Your task to perform on an android device: open app "Google Maps" (install if not already installed) Image 0: 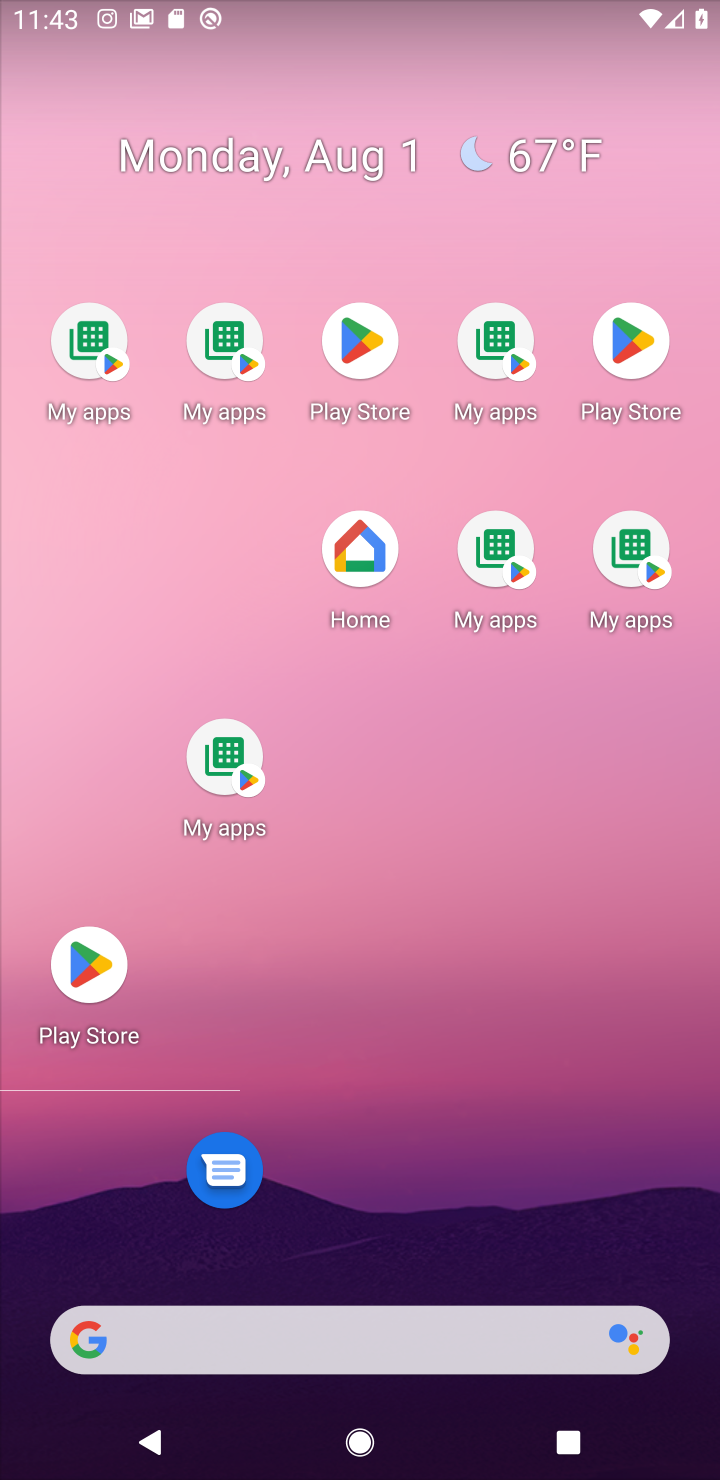
Step 0: click (627, 318)
Your task to perform on an android device: open app "Google Maps" (install if not already installed) Image 1: 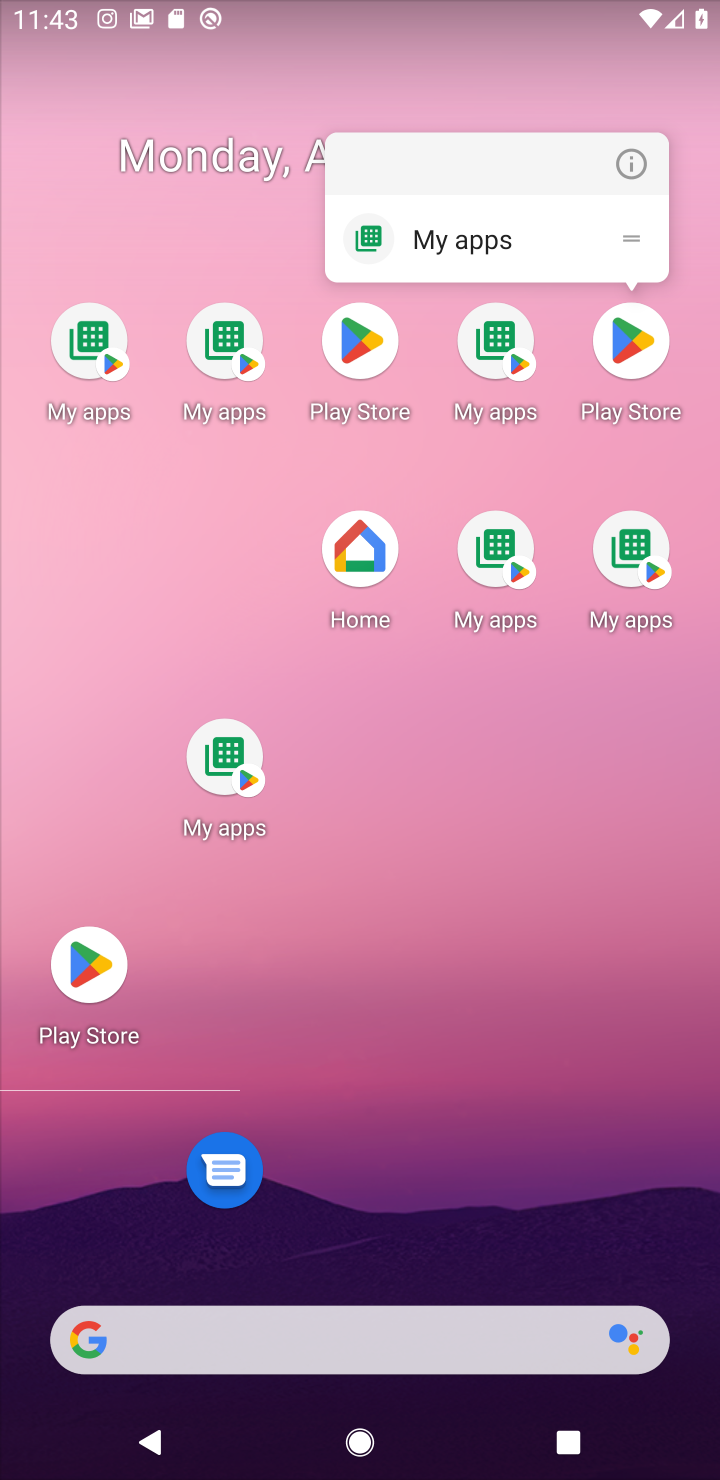
Step 1: click (482, 1049)
Your task to perform on an android device: open app "Google Maps" (install if not already installed) Image 2: 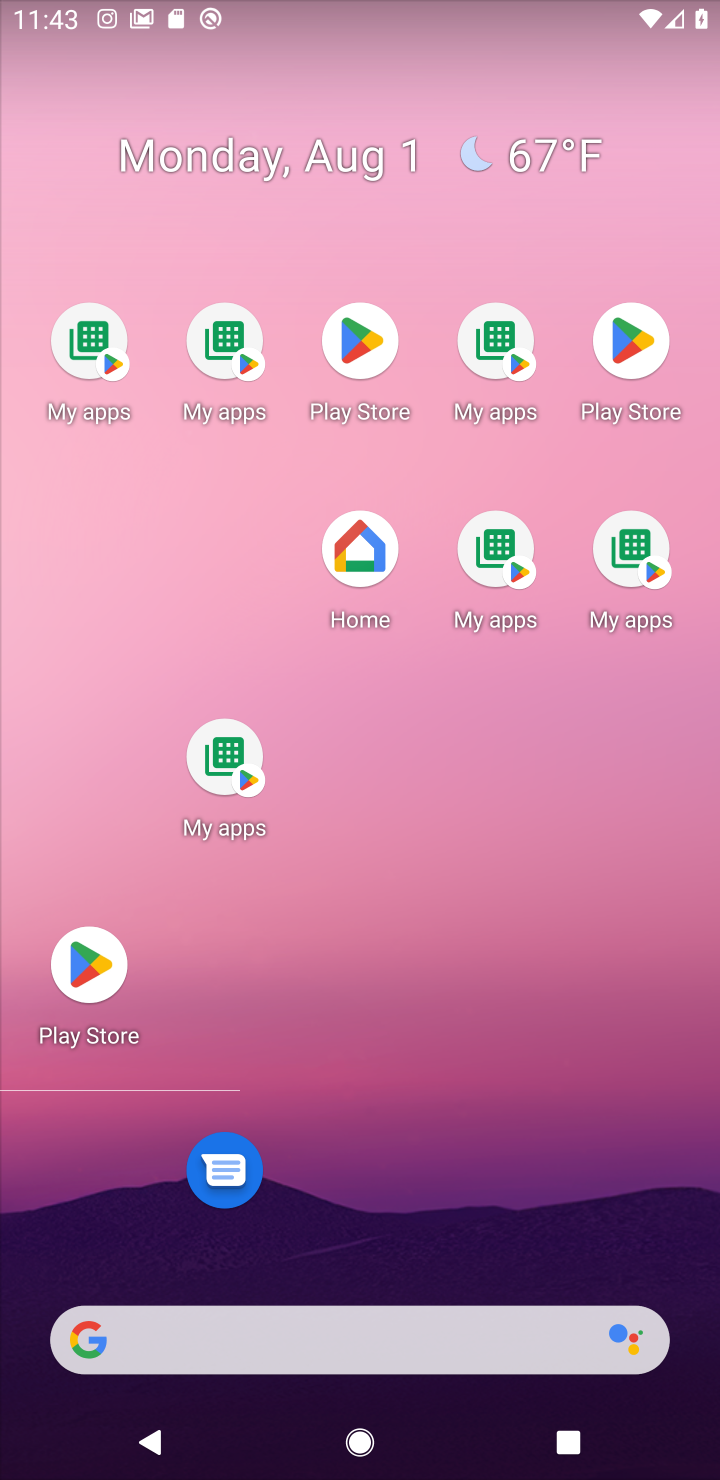
Step 2: click (367, 521)
Your task to perform on an android device: open app "Google Maps" (install if not already installed) Image 3: 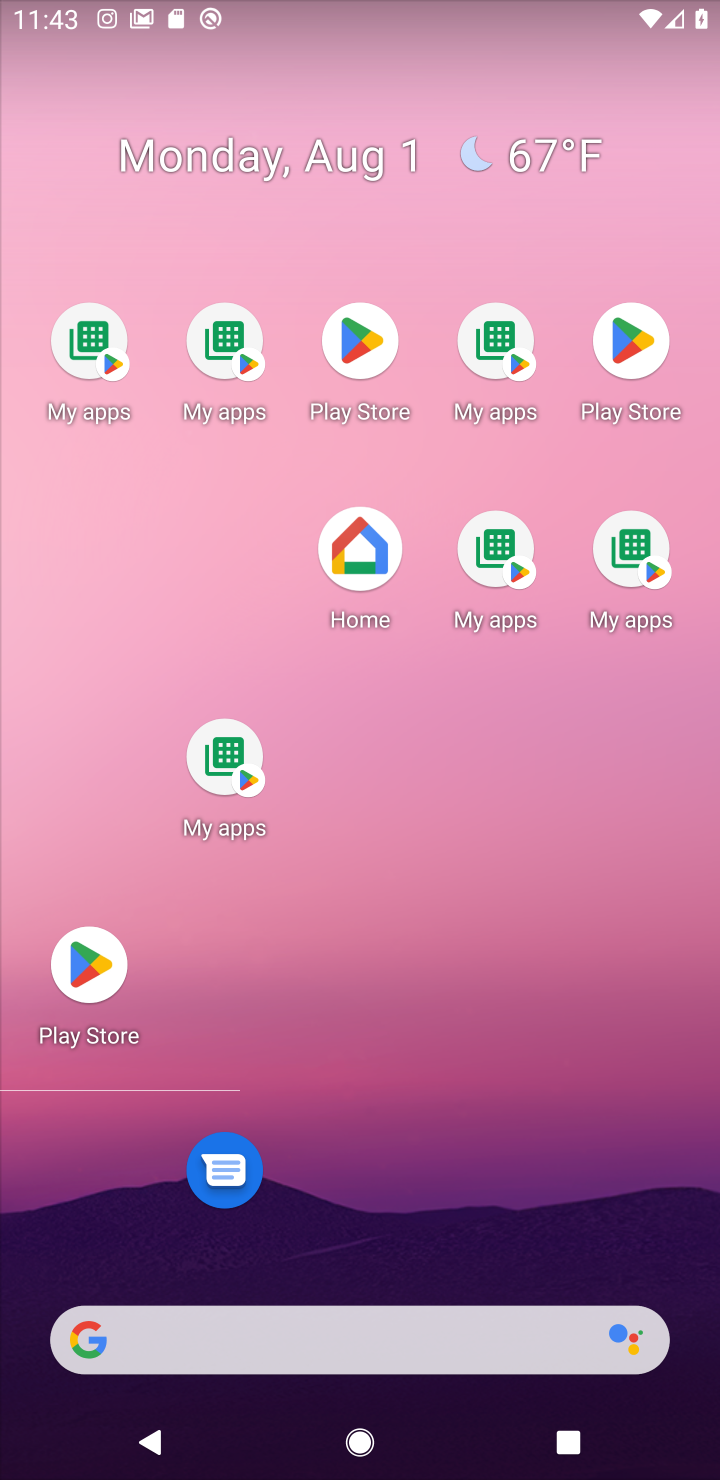
Step 3: drag from (402, 886) to (402, 190)
Your task to perform on an android device: open app "Google Maps" (install if not already installed) Image 4: 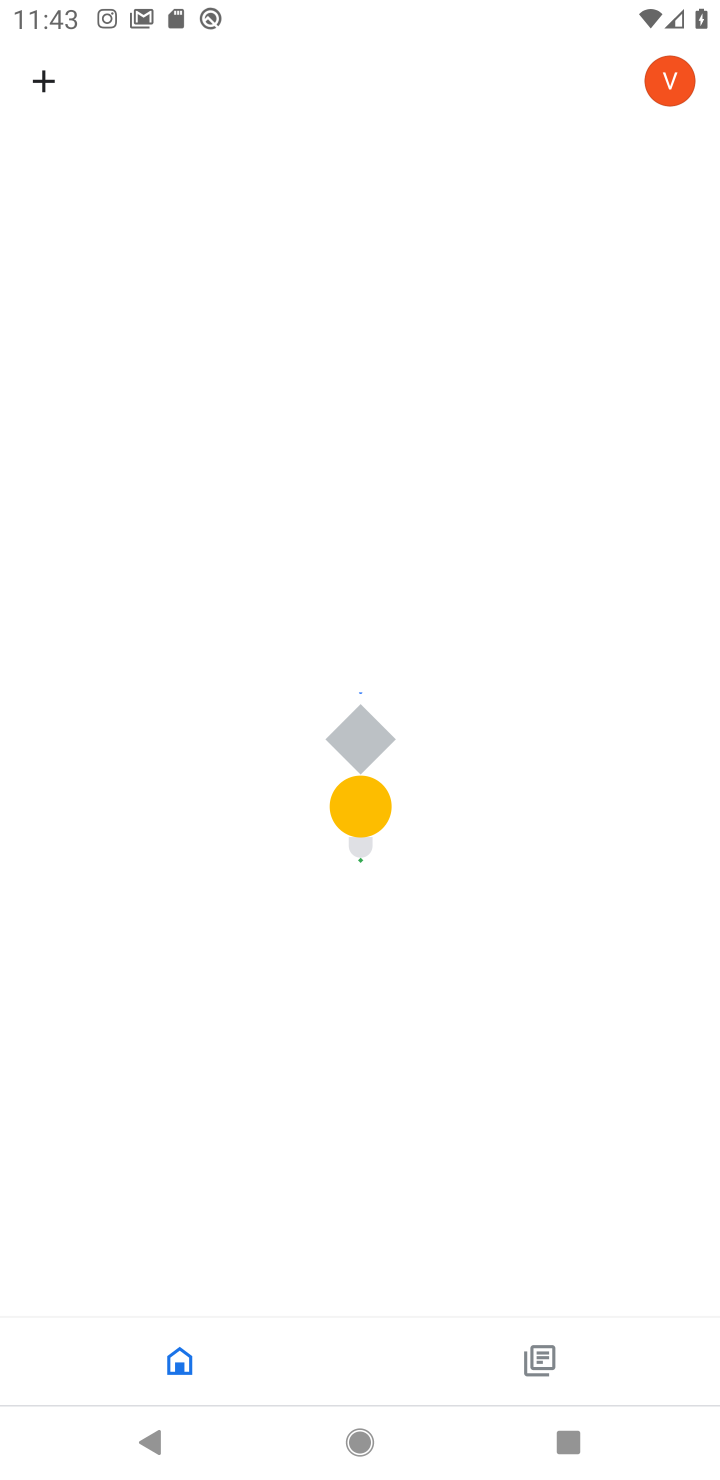
Step 4: click (326, 193)
Your task to perform on an android device: open app "Google Maps" (install if not already installed) Image 5: 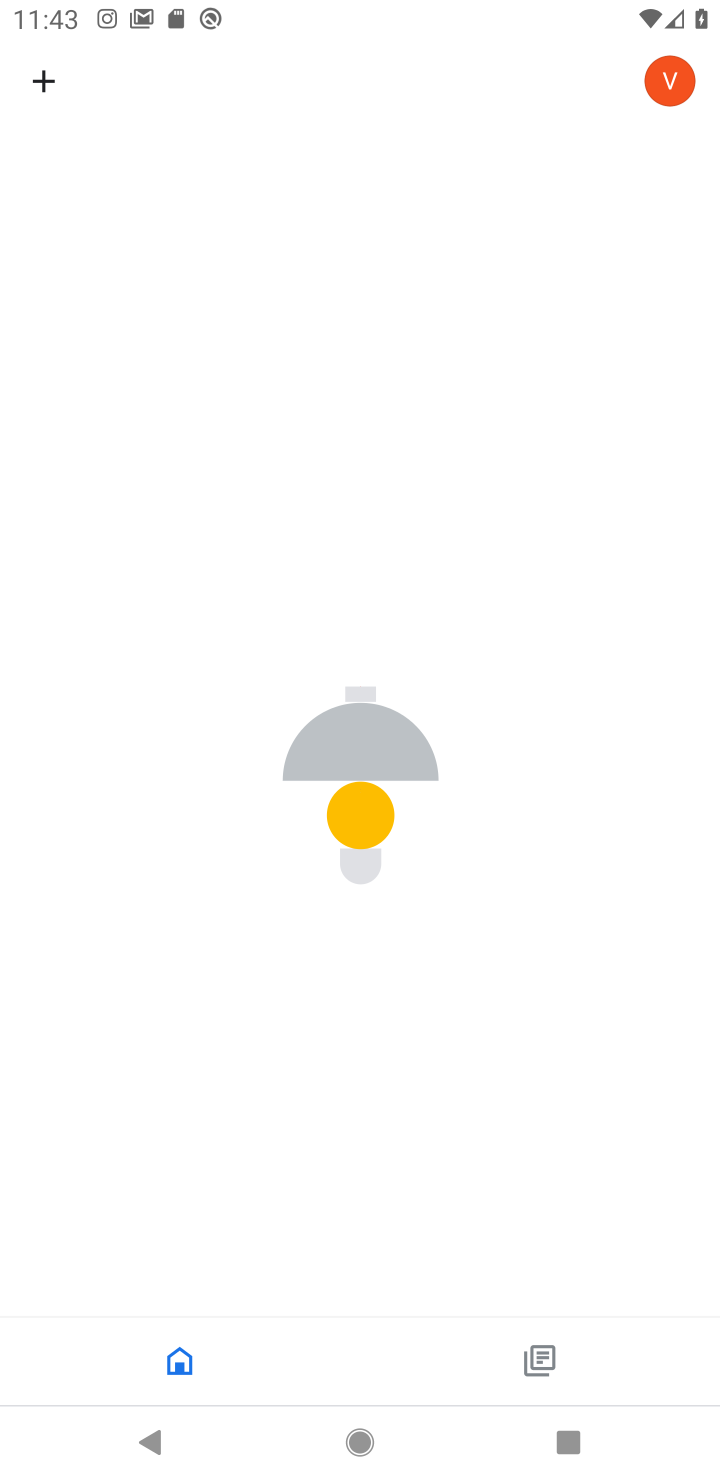
Step 5: click (39, 76)
Your task to perform on an android device: open app "Google Maps" (install if not already installed) Image 6: 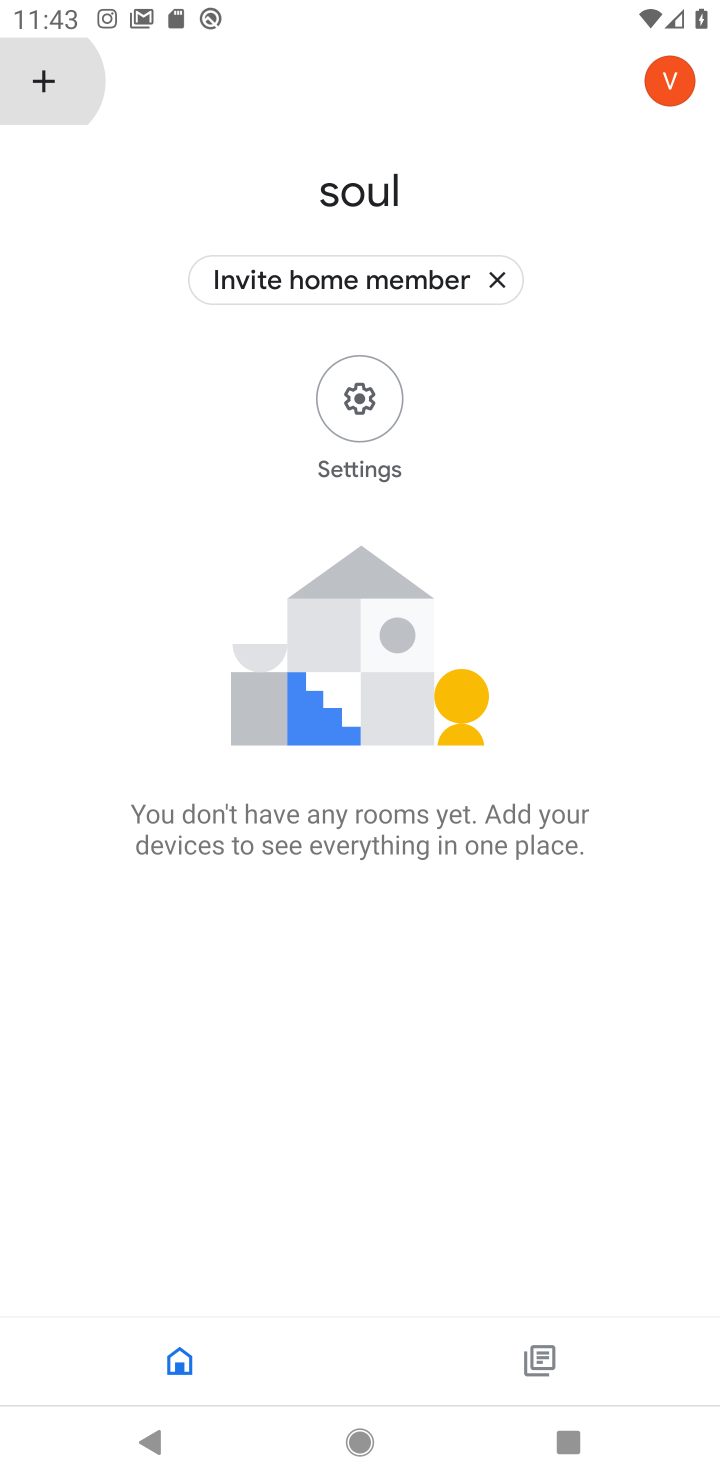
Step 6: click (46, 70)
Your task to perform on an android device: open app "Google Maps" (install if not already installed) Image 7: 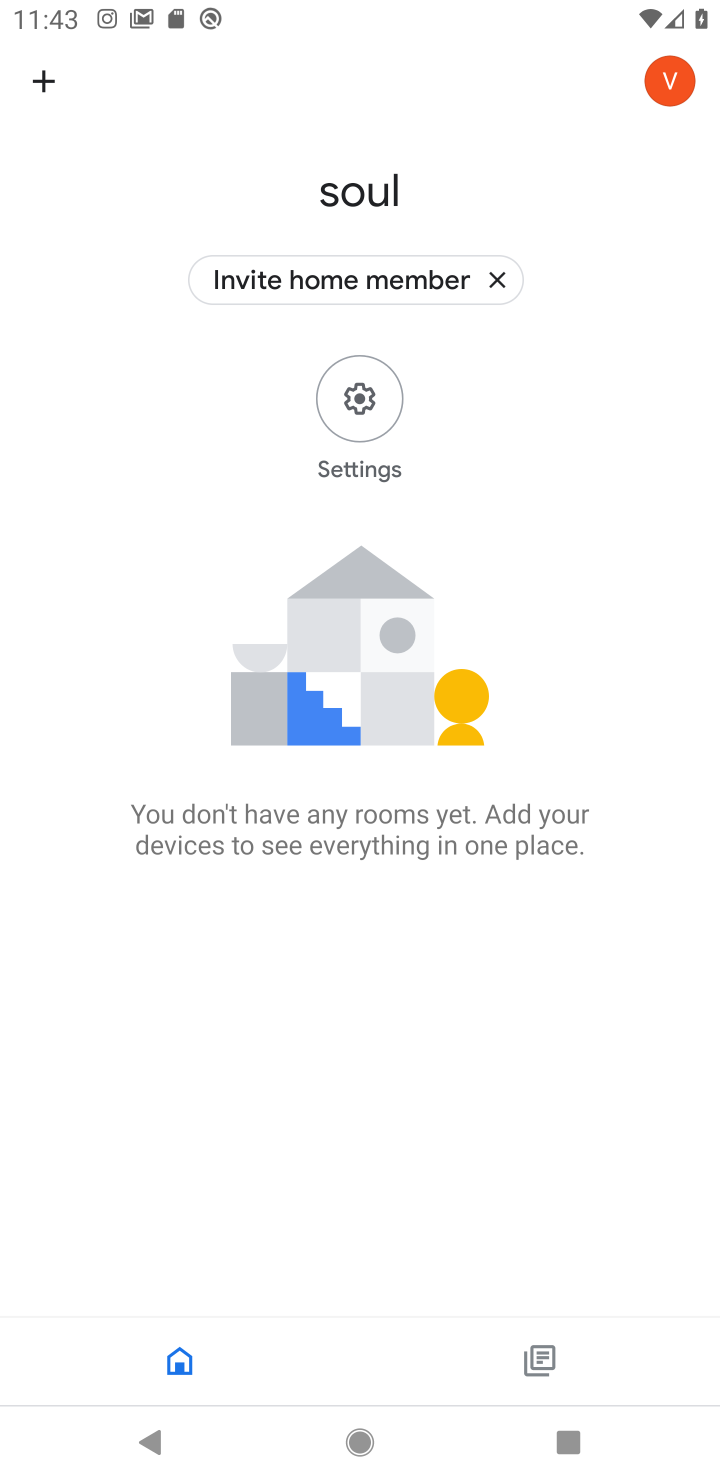
Step 7: click (46, 70)
Your task to perform on an android device: open app "Google Maps" (install if not already installed) Image 8: 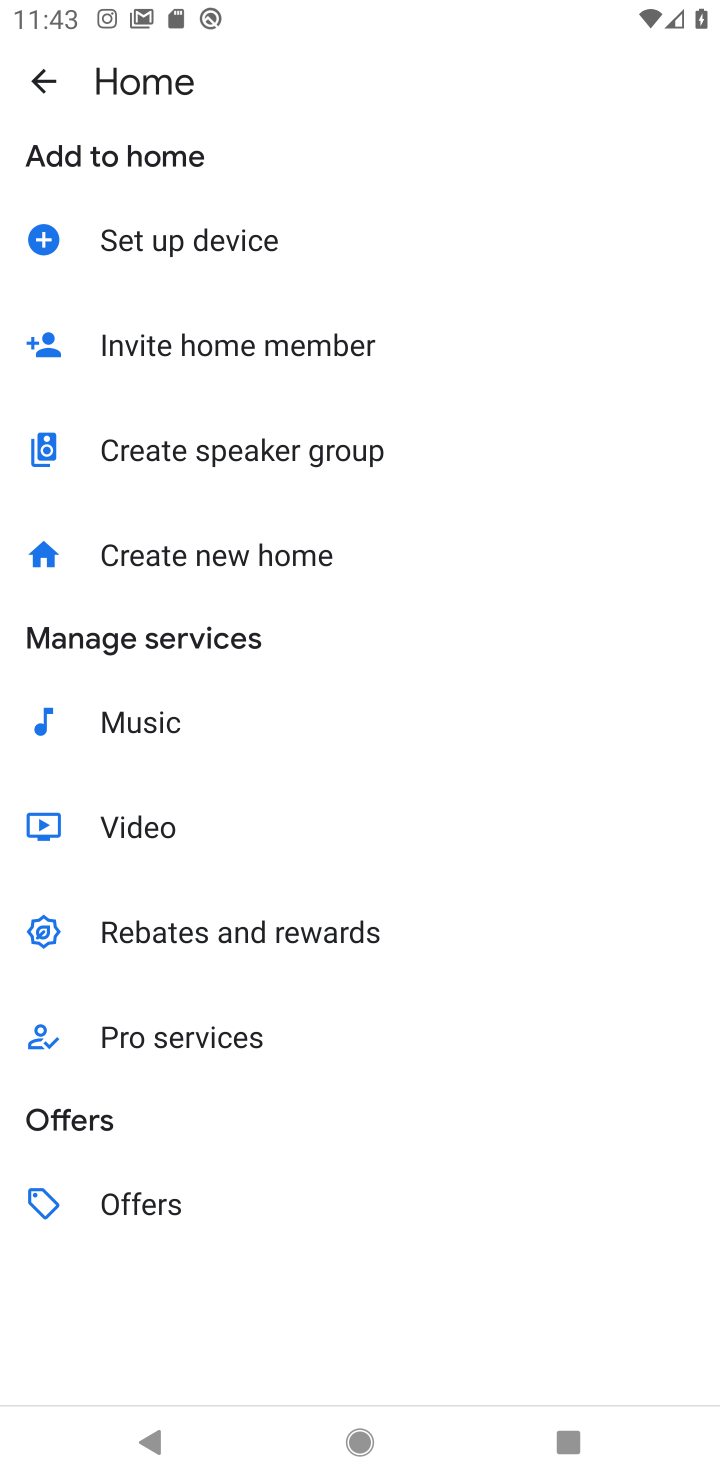
Step 8: click (46, 70)
Your task to perform on an android device: open app "Google Maps" (install if not already installed) Image 9: 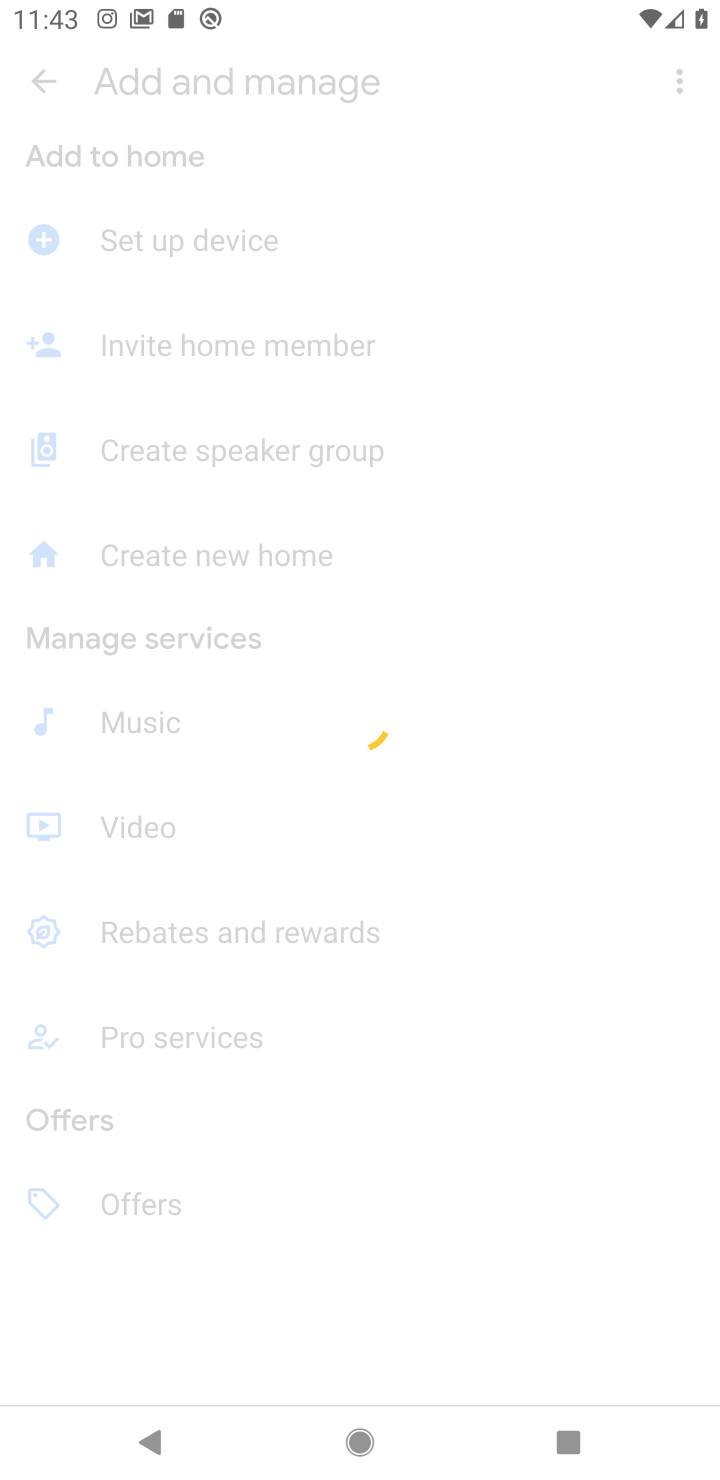
Step 9: click (49, 73)
Your task to perform on an android device: open app "Google Maps" (install if not already installed) Image 10: 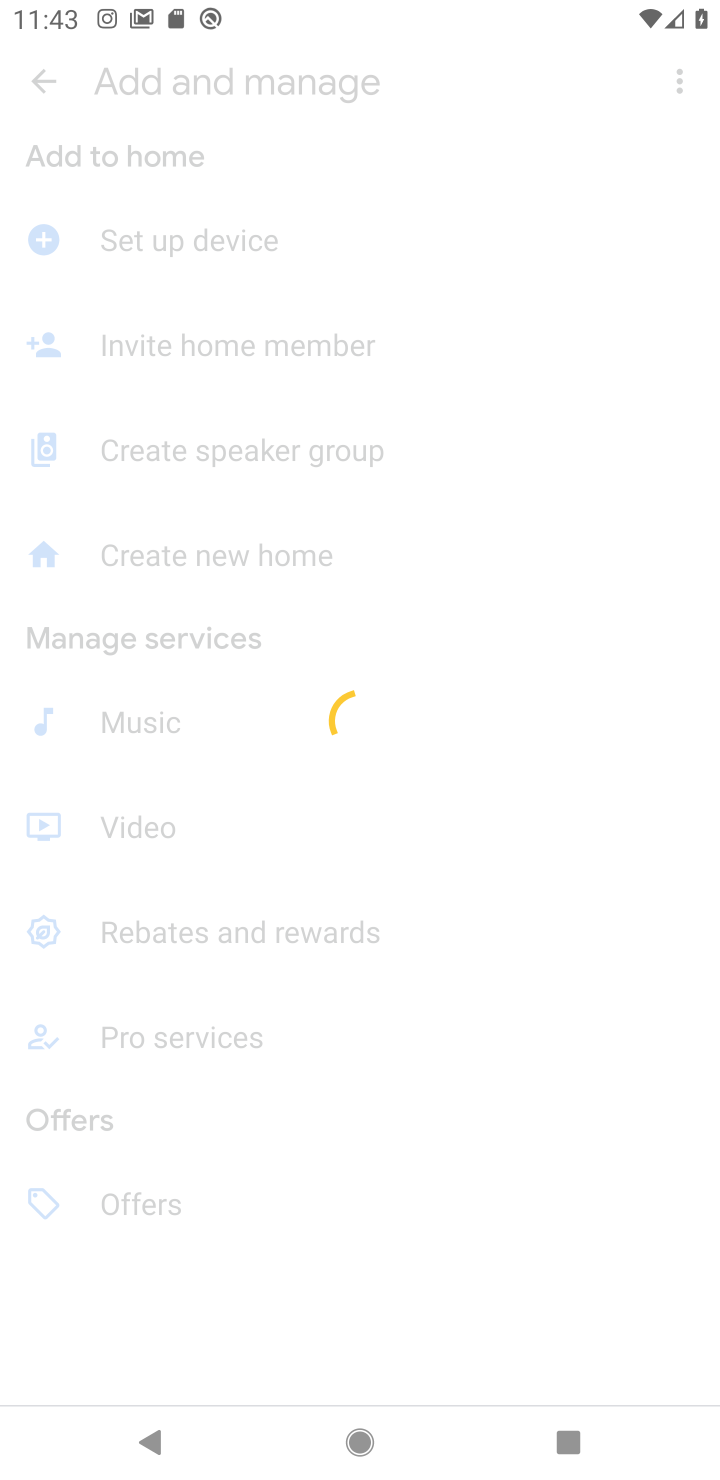
Step 10: click (31, 52)
Your task to perform on an android device: open app "Google Maps" (install if not already installed) Image 11: 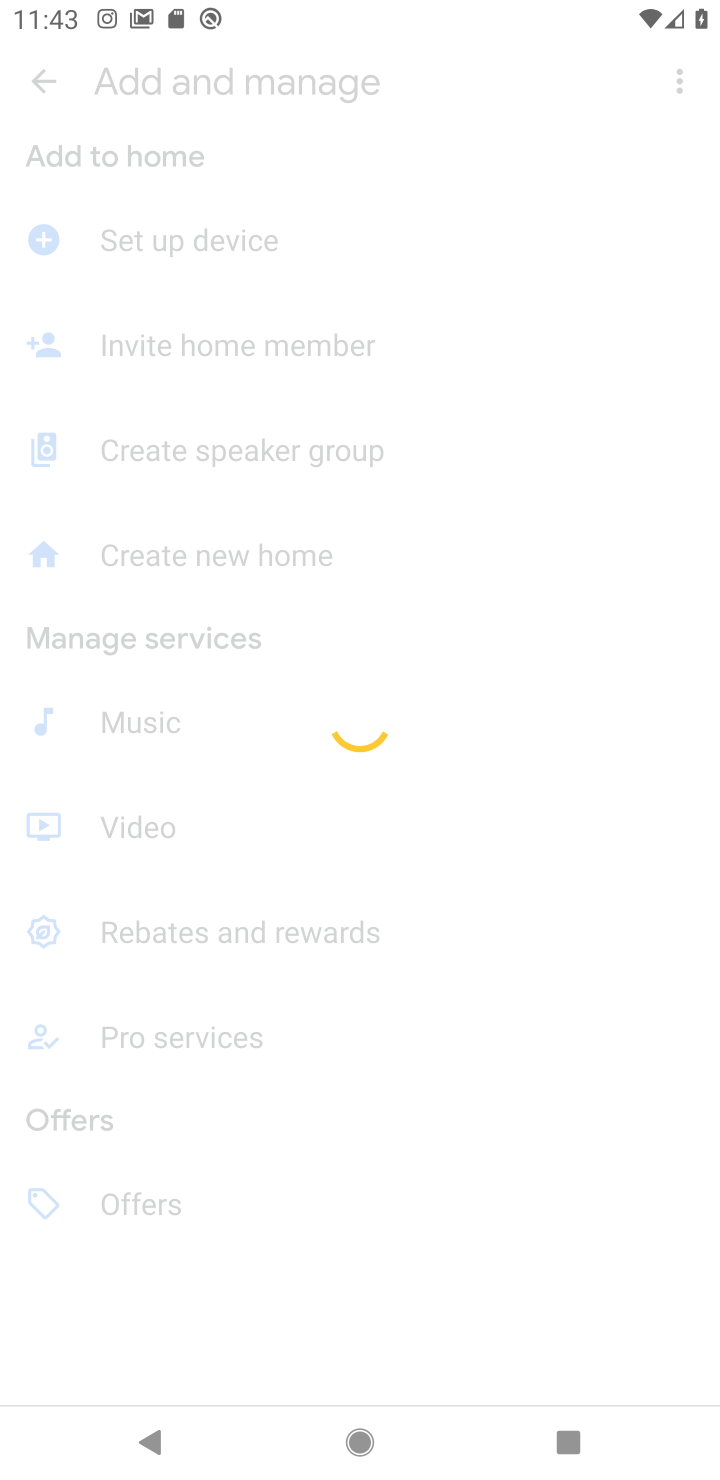
Step 11: click (33, 50)
Your task to perform on an android device: open app "Google Maps" (install if not already installed) Image 12: 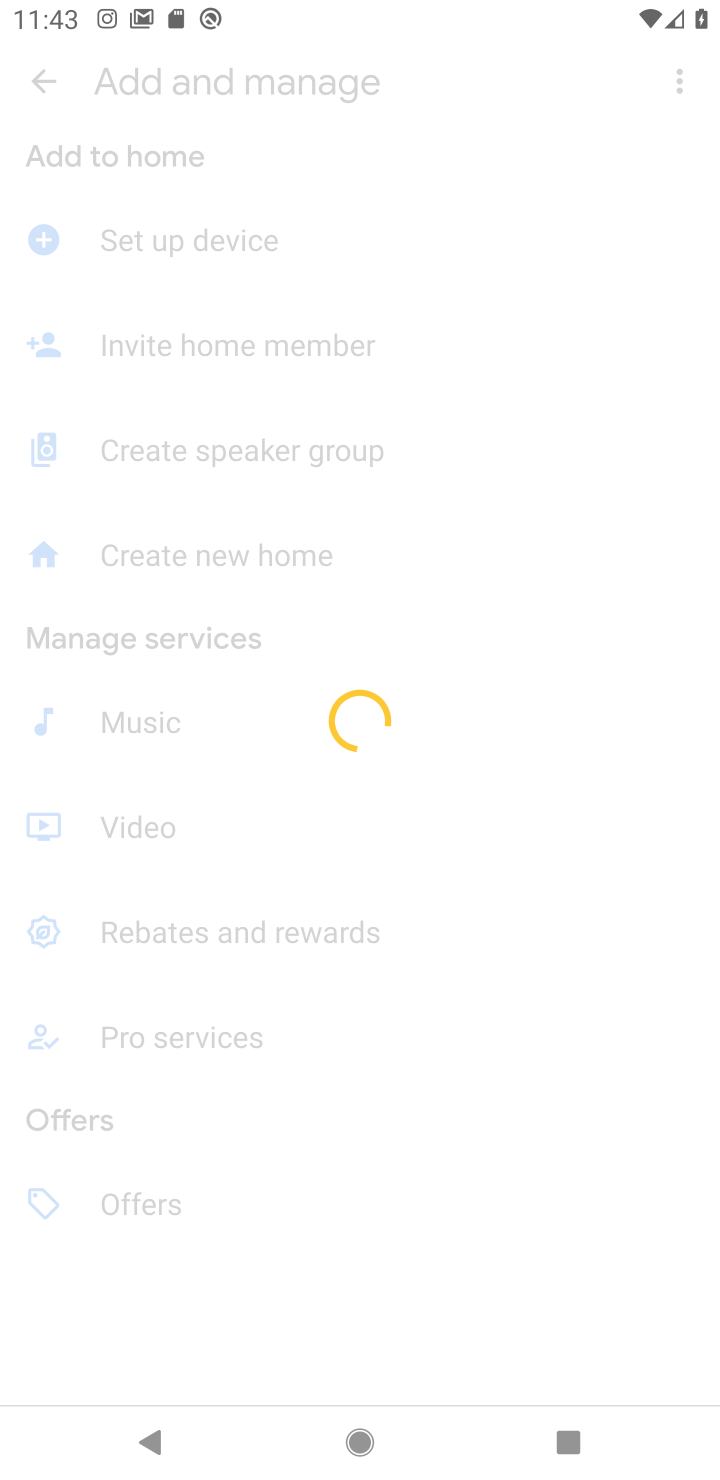
Step 12: click (37, 54)
Your task to perform on an android device: open app "Google Maps" (install if not already installed) Image 13: 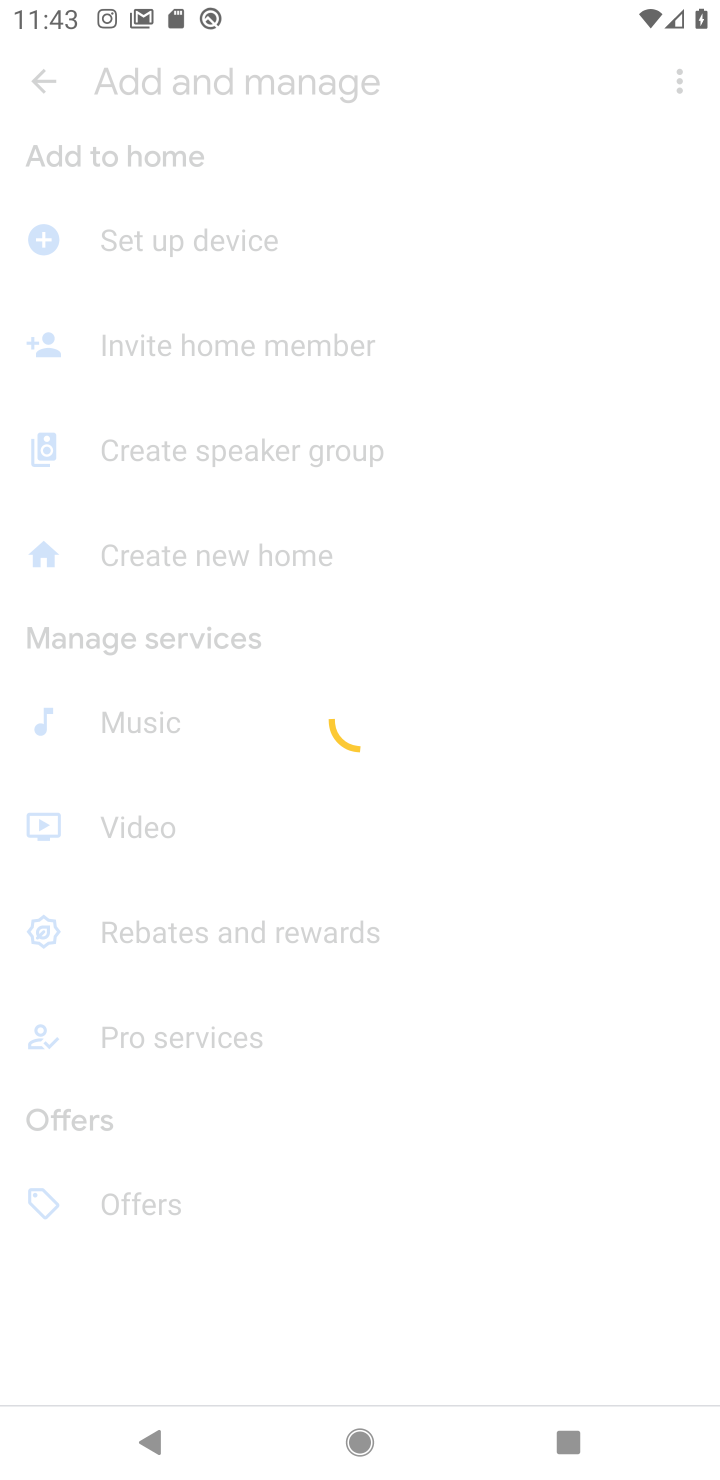
Step 13: press back button
Your task to perform on an android device: open app "Google Maps" (install if not already installed) Image 14: 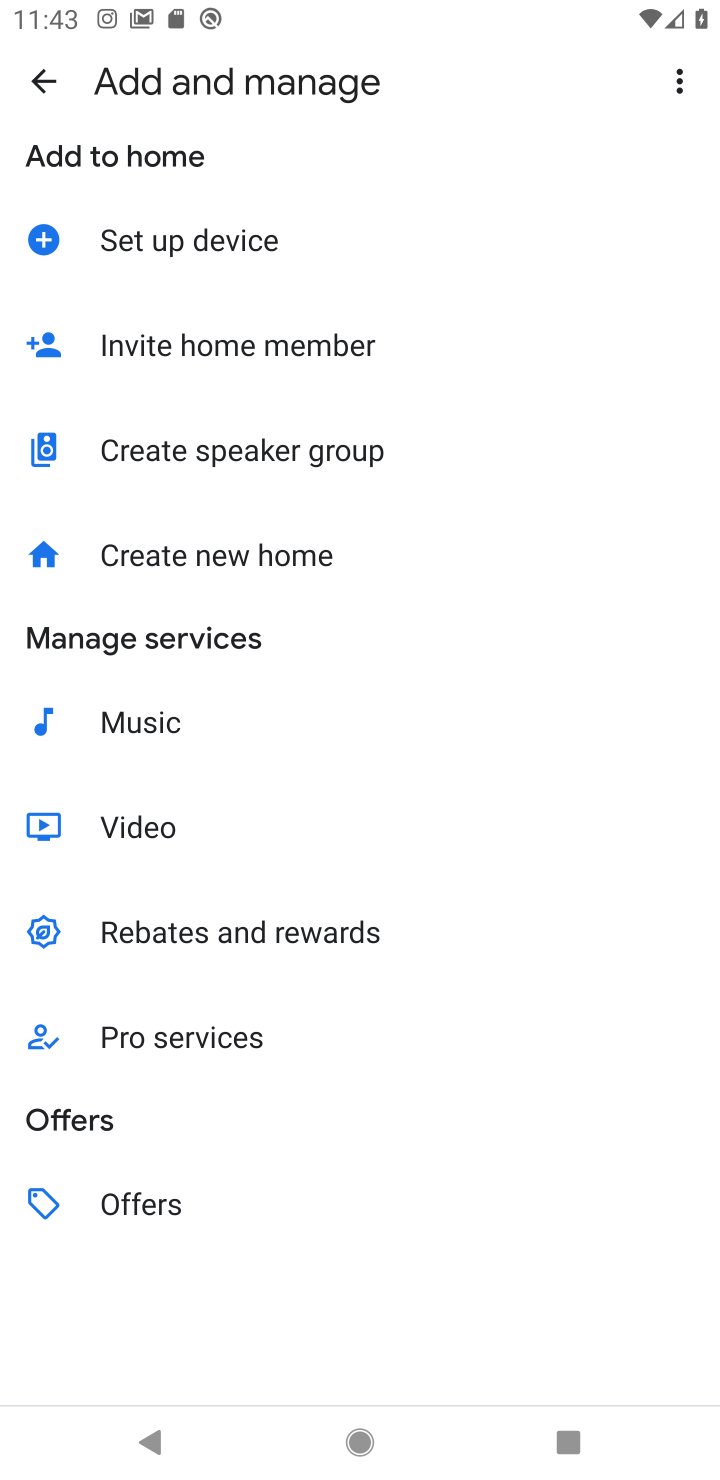
Step 14: press back button
Your task to perform on an android device: open app "Google Maps" (install if not already installed) Image 15: 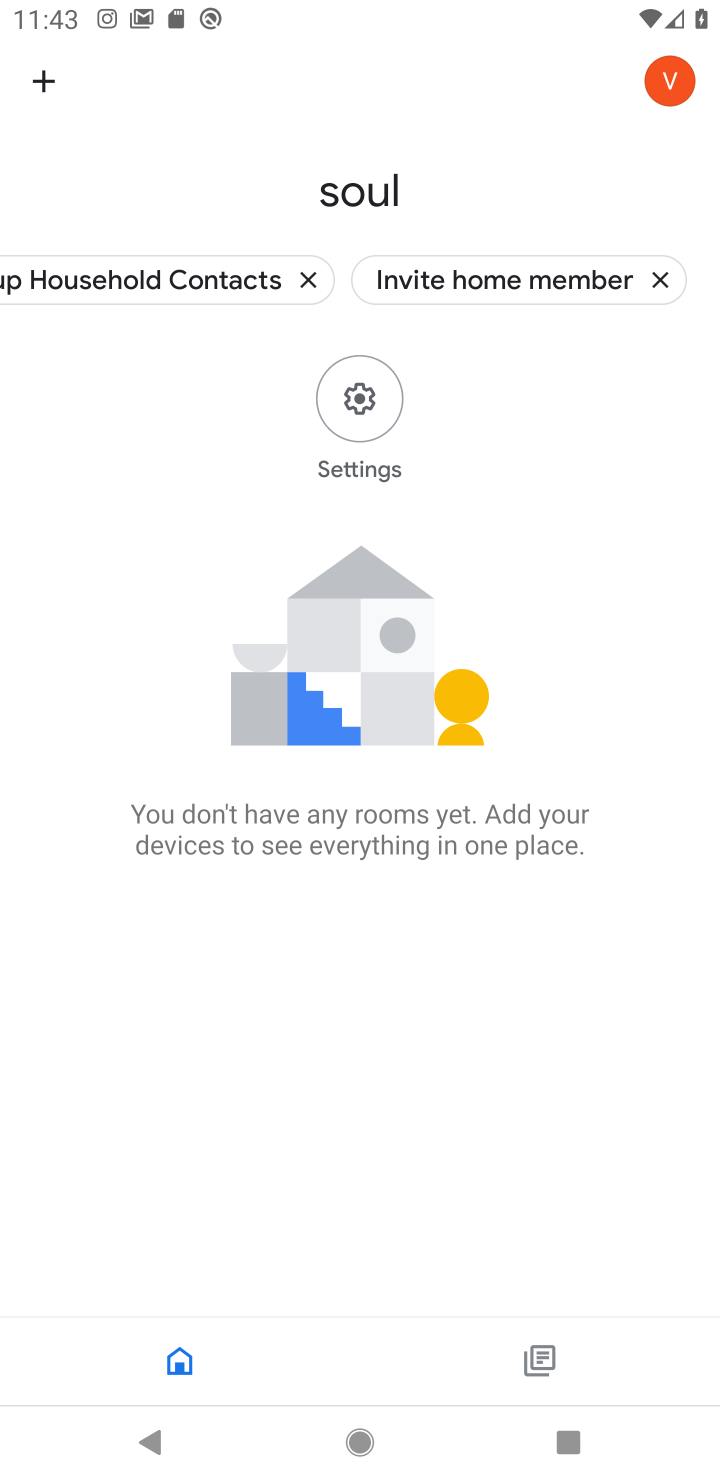
Step 15: press back button
Your task to perform on an android device: open app "Google Maps" (install if not already installed) Image 16: 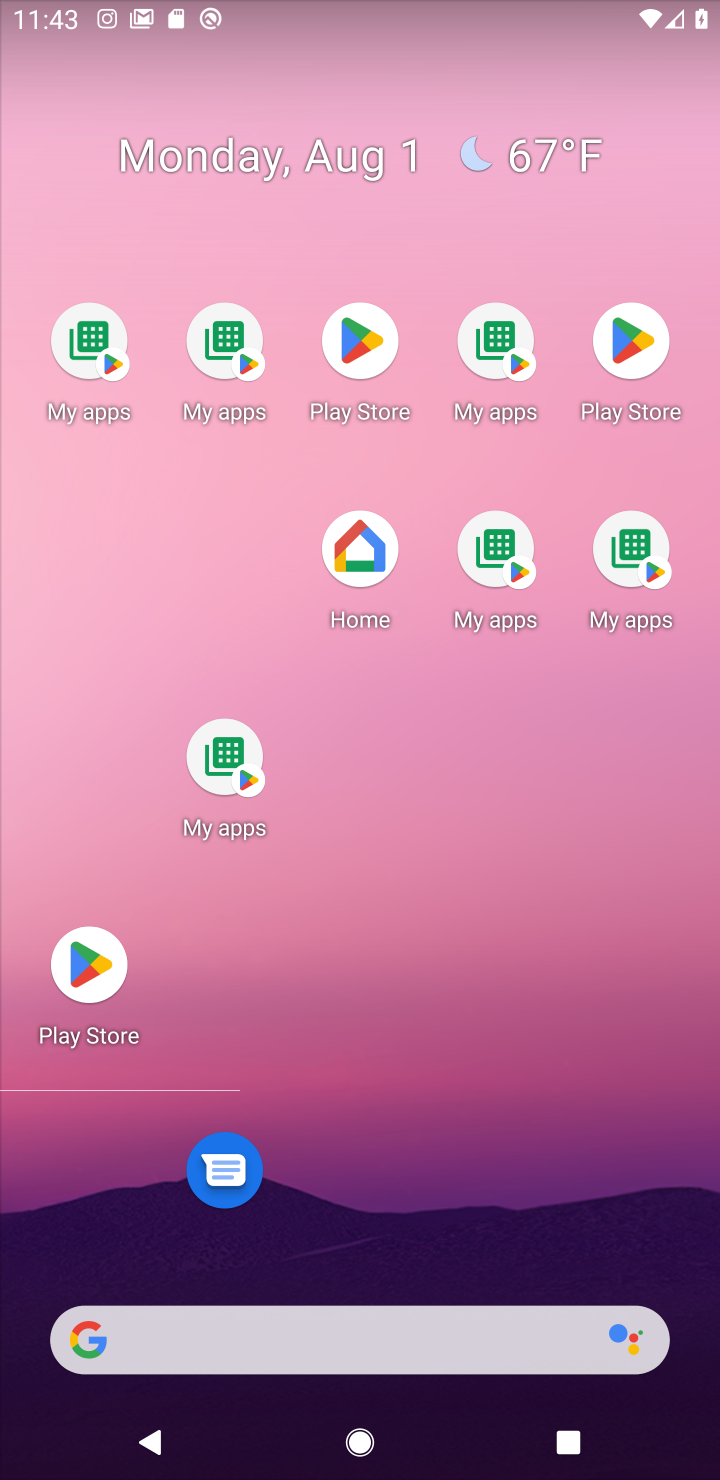
Step 16: press home button
Your task to perform on an android device: open app "Google Maps" (install if not already installed) Image 17: 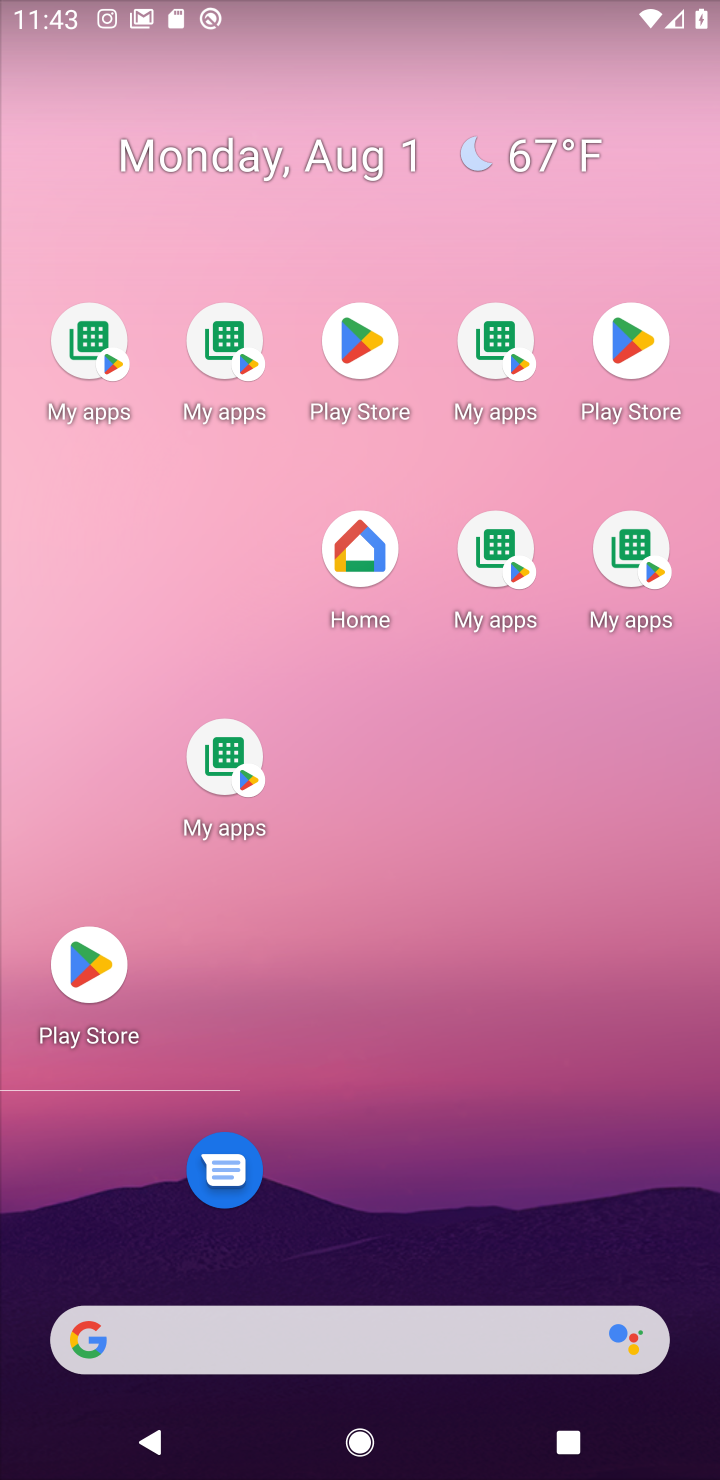
Step 17: press home button
Your task to perform on an android device: open app "Google Maps" (install if not already installed) Image 18: 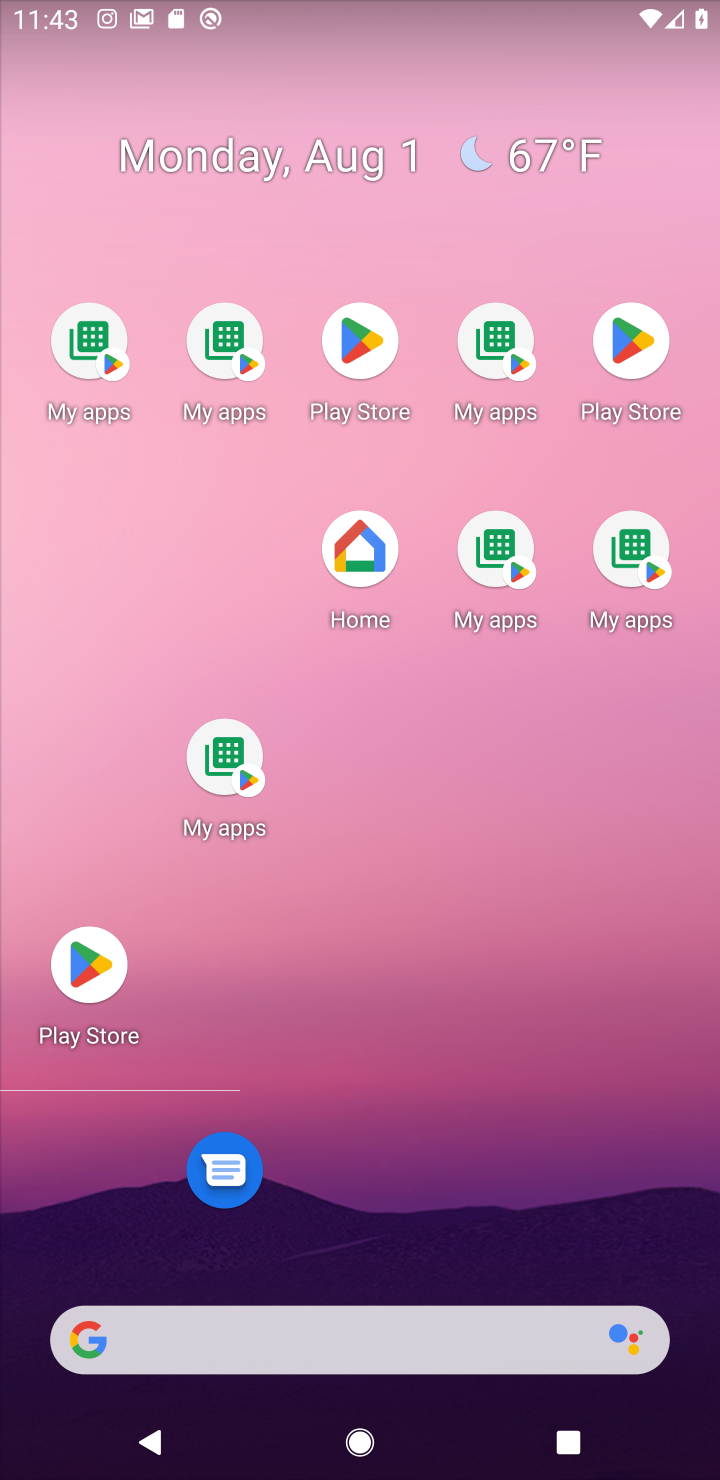
Step 18: click (211, 274)
Your task to perform on an android device: open app "Google Maps" (install if not already installed) Image 19: 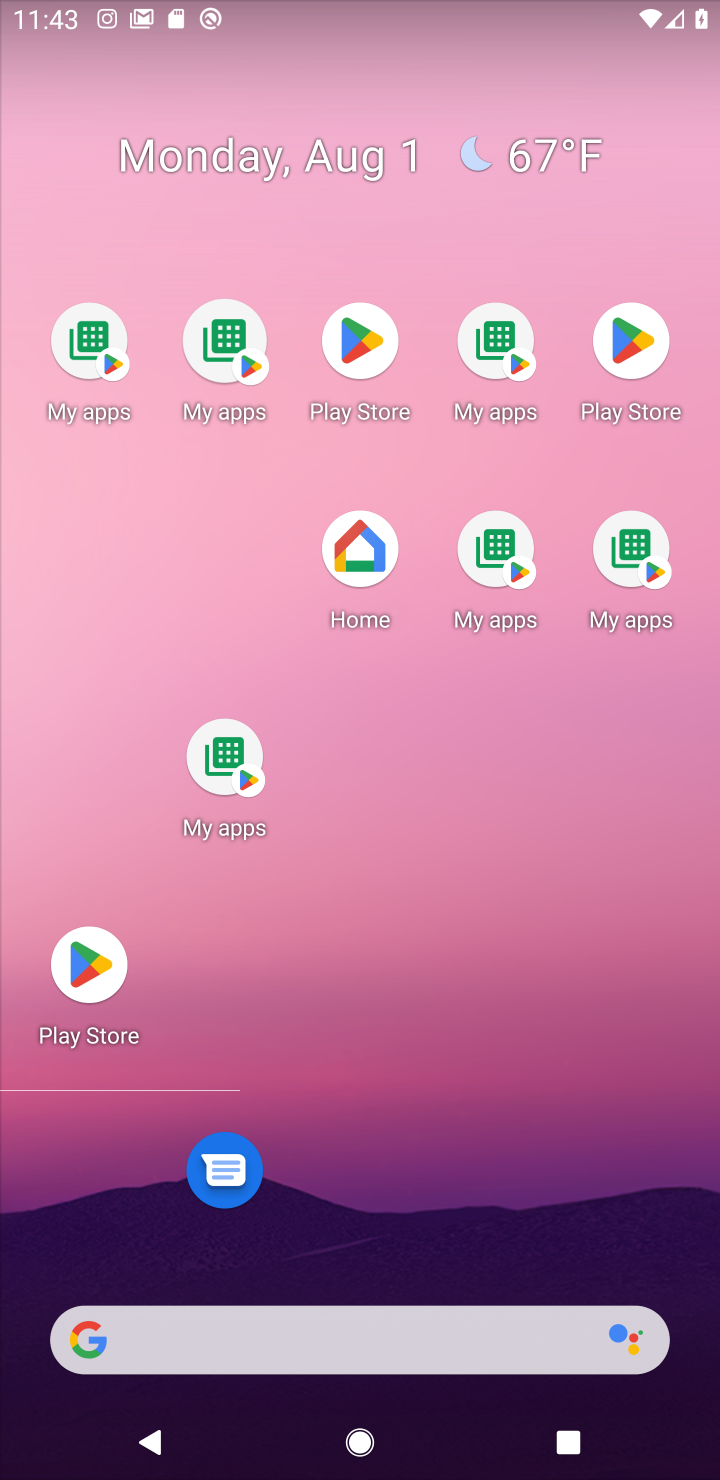
Step 19: drag from (521, 1075) to (451, 352)
Your task to perform on an android device: open app "Google Maps" (install if not already installed) Image 20: 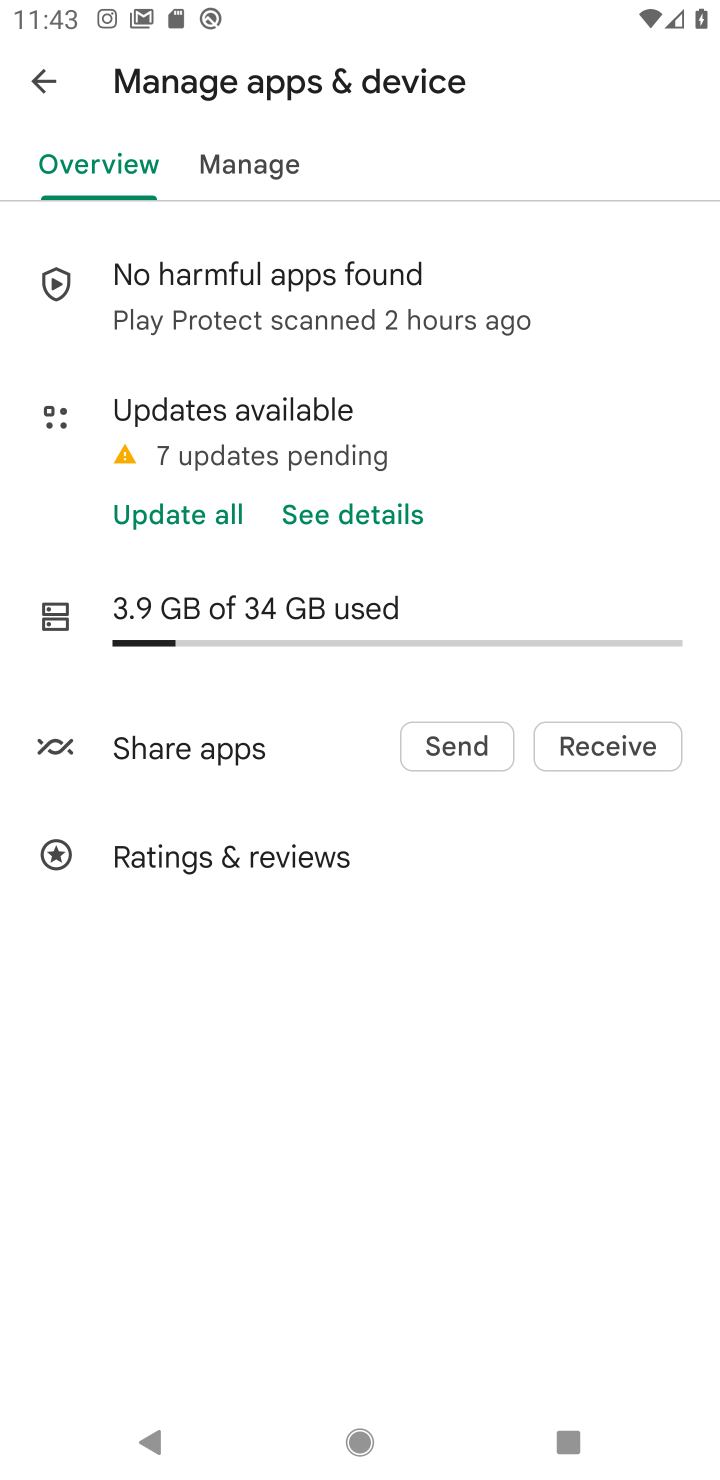
Step 20: click (42, 85)
Your task to perform on an android device: open app "Google Maps" (install if not already installed) Image 21: 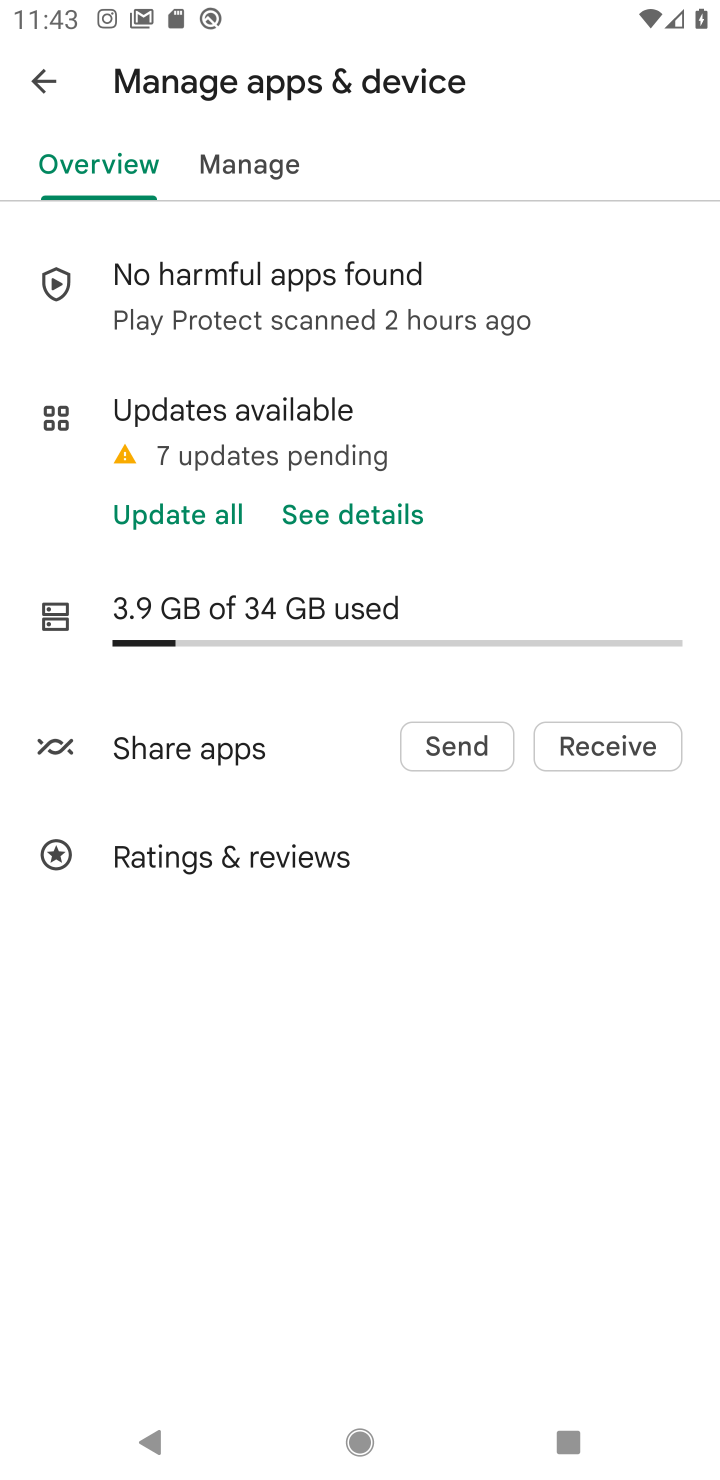
Step 21: click (42, 85)
Your task to perform on an android device: open app "Google Maps" (install if not already installed) Image 22: 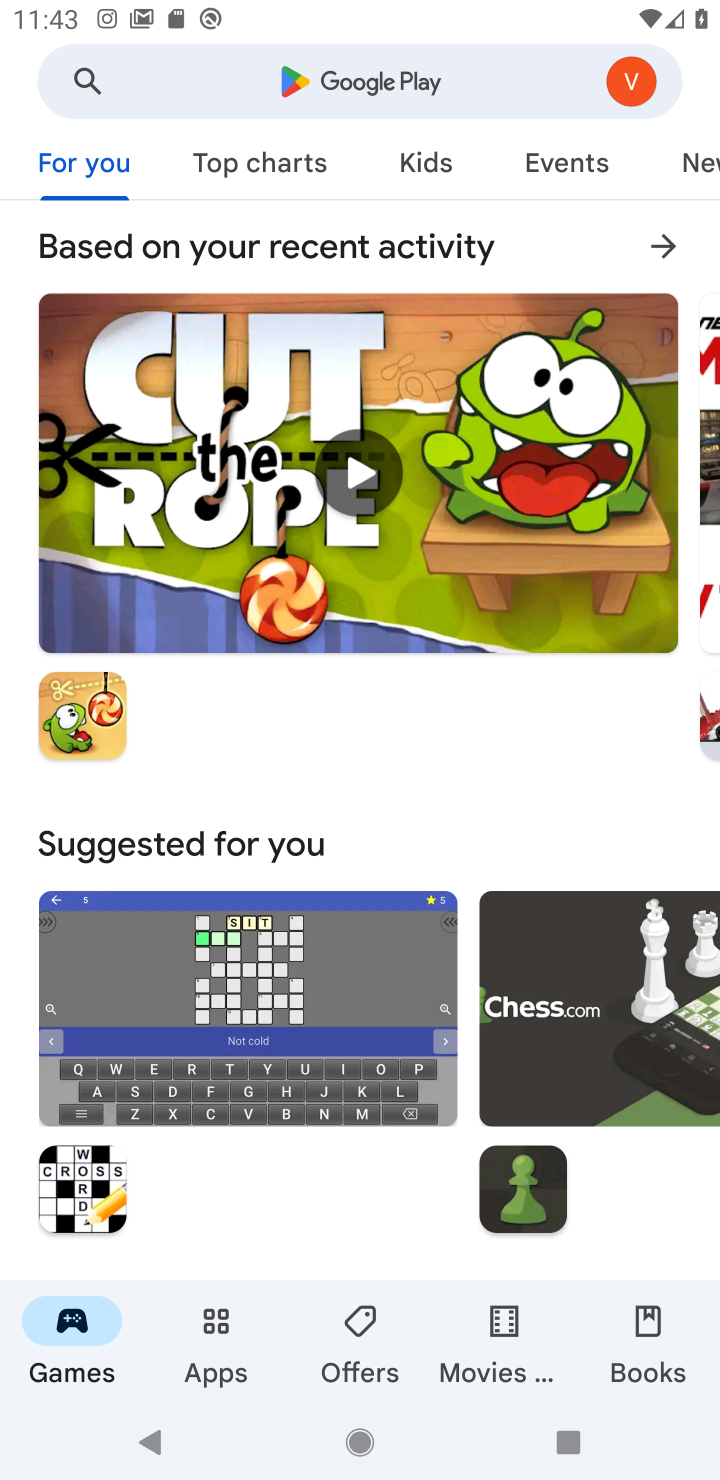
Step 22: click (314, 59)
Your task to perform on an android device: open app "Google Maps" (install if not already installed) Image 23: 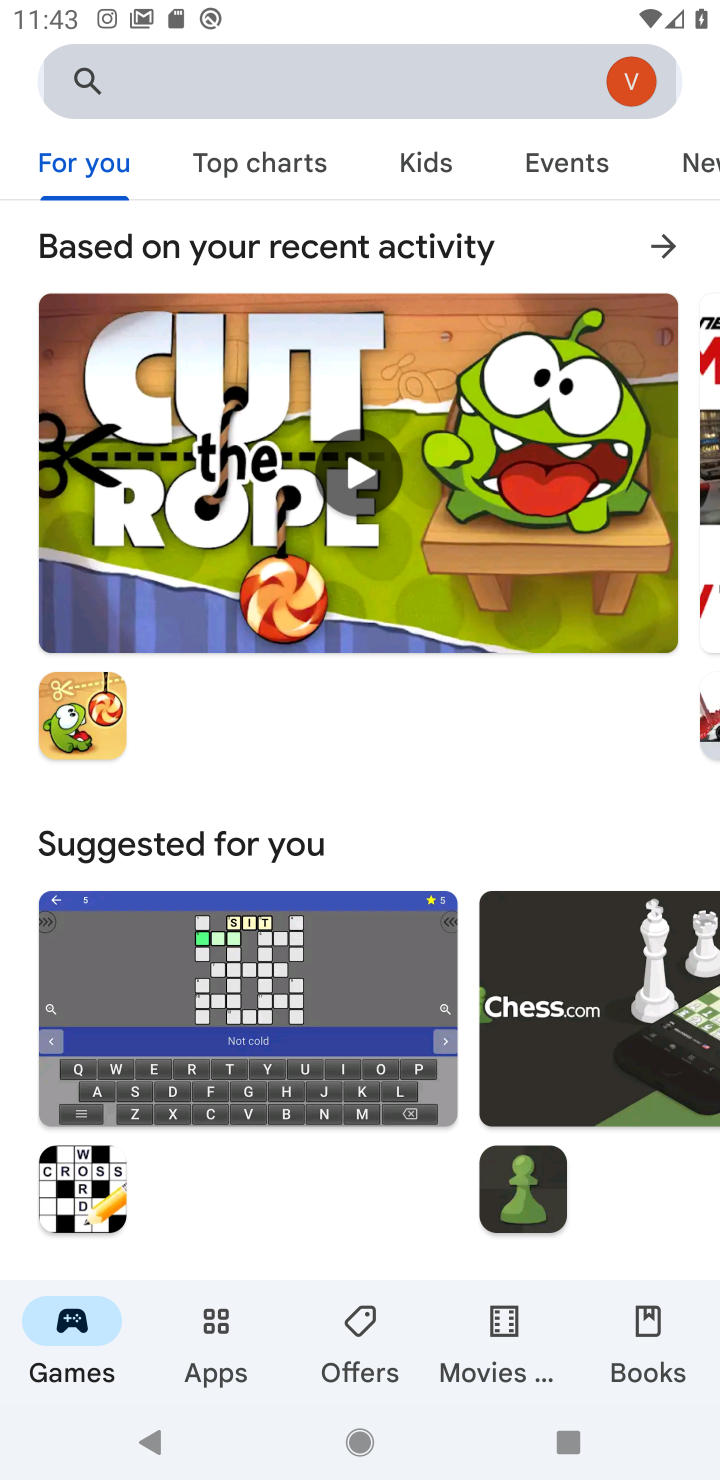
Step 23: click (320, 57)
Your task to perform on an android device: open app "Google Maps" (install if not already installed) Image 24: 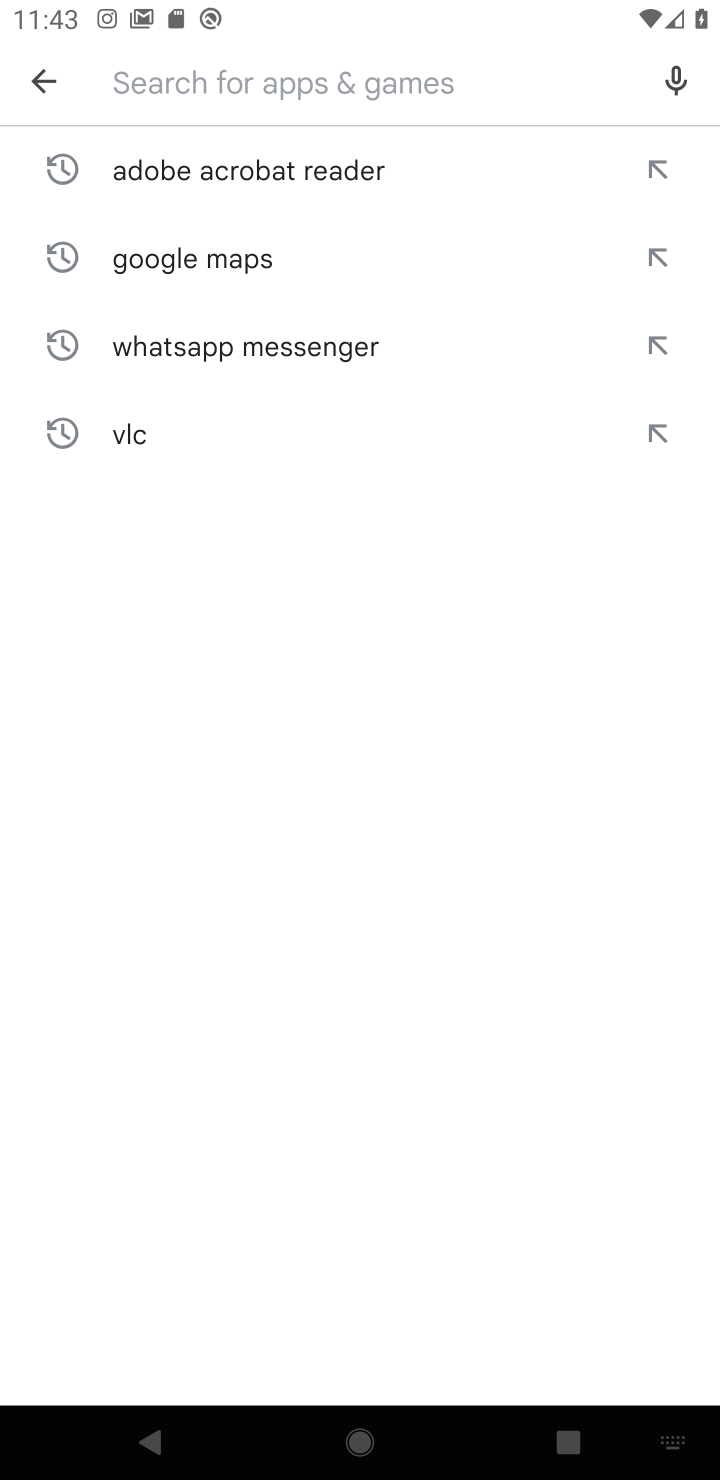
Step 24: click (327, 65)
Your task to perform on an android device: open app "Google Maps" (install if not already installed) Image 25: 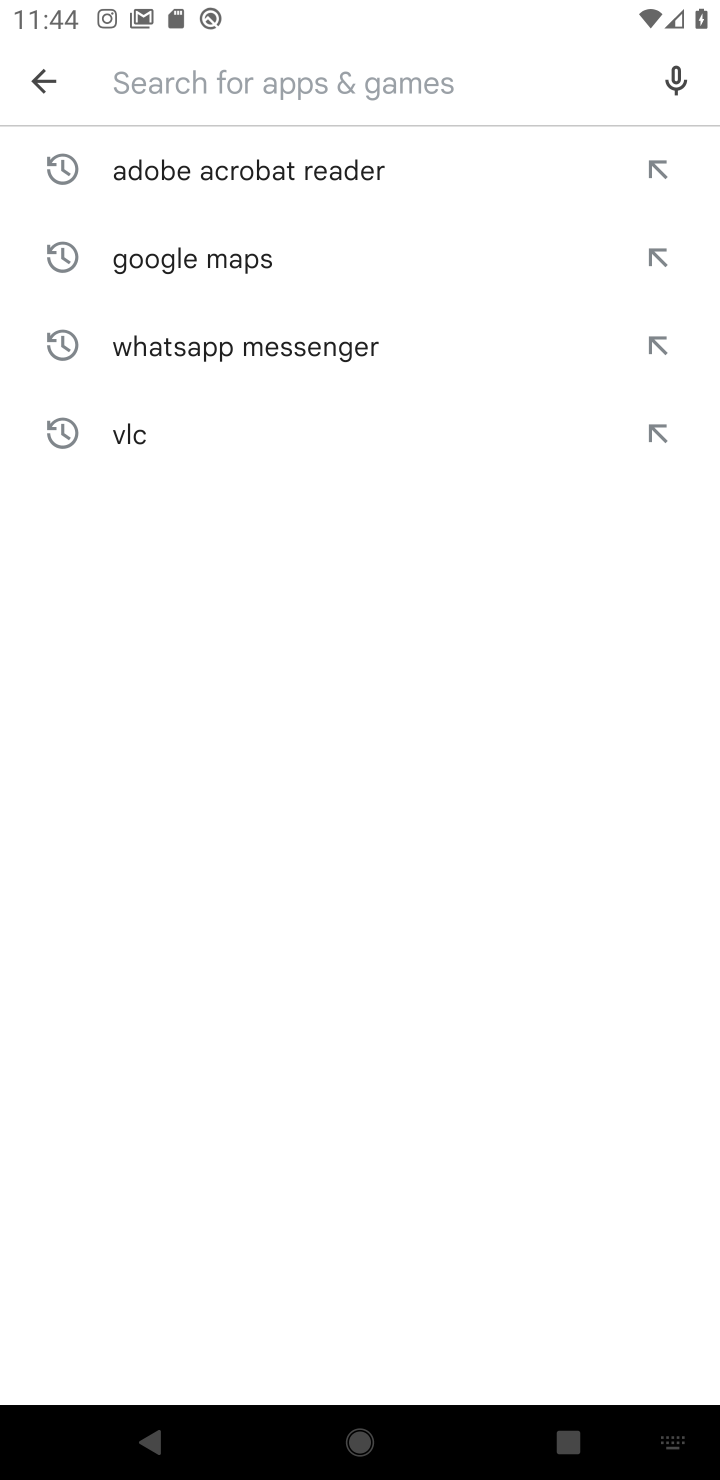
Step 25: type "google maps"
Your task to perform on an android device: open app "Google Maps" (install if not already installed) Image 26: 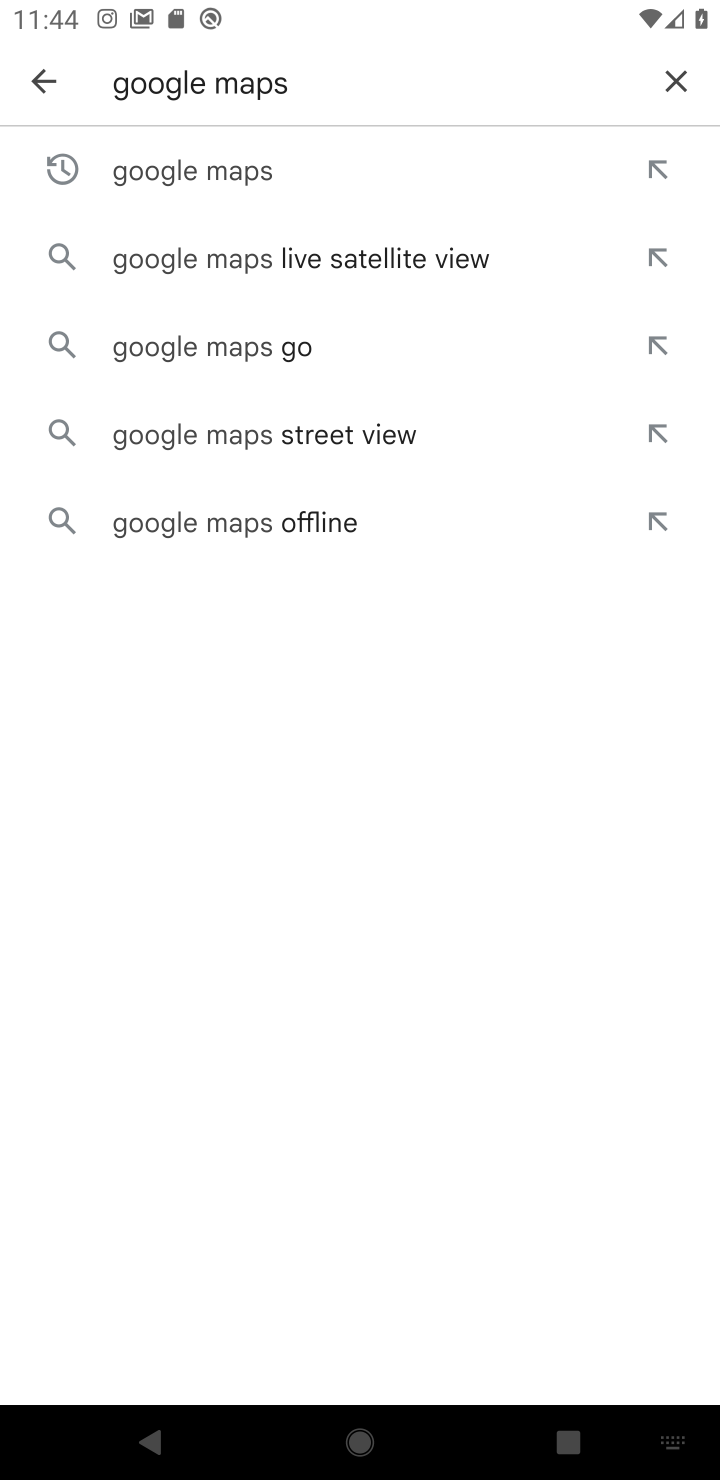
Step 26: click (200, 155)
Your task to perform on an android device: open app "Google Maps" (install if not already installed) Image 27: 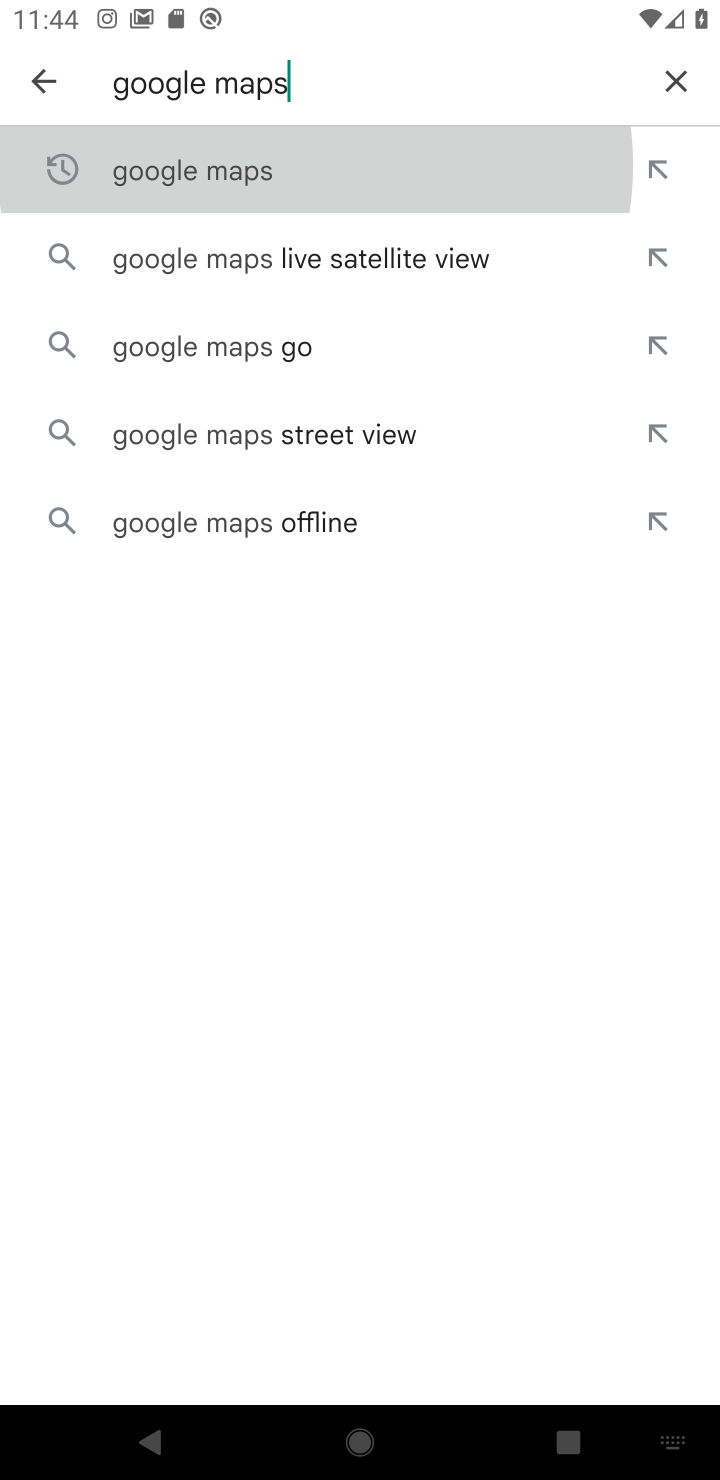
Step 27: click (231, 168)
Your task to perform on an android device: open app "Google Maps" (install if not already installed) Image 28: 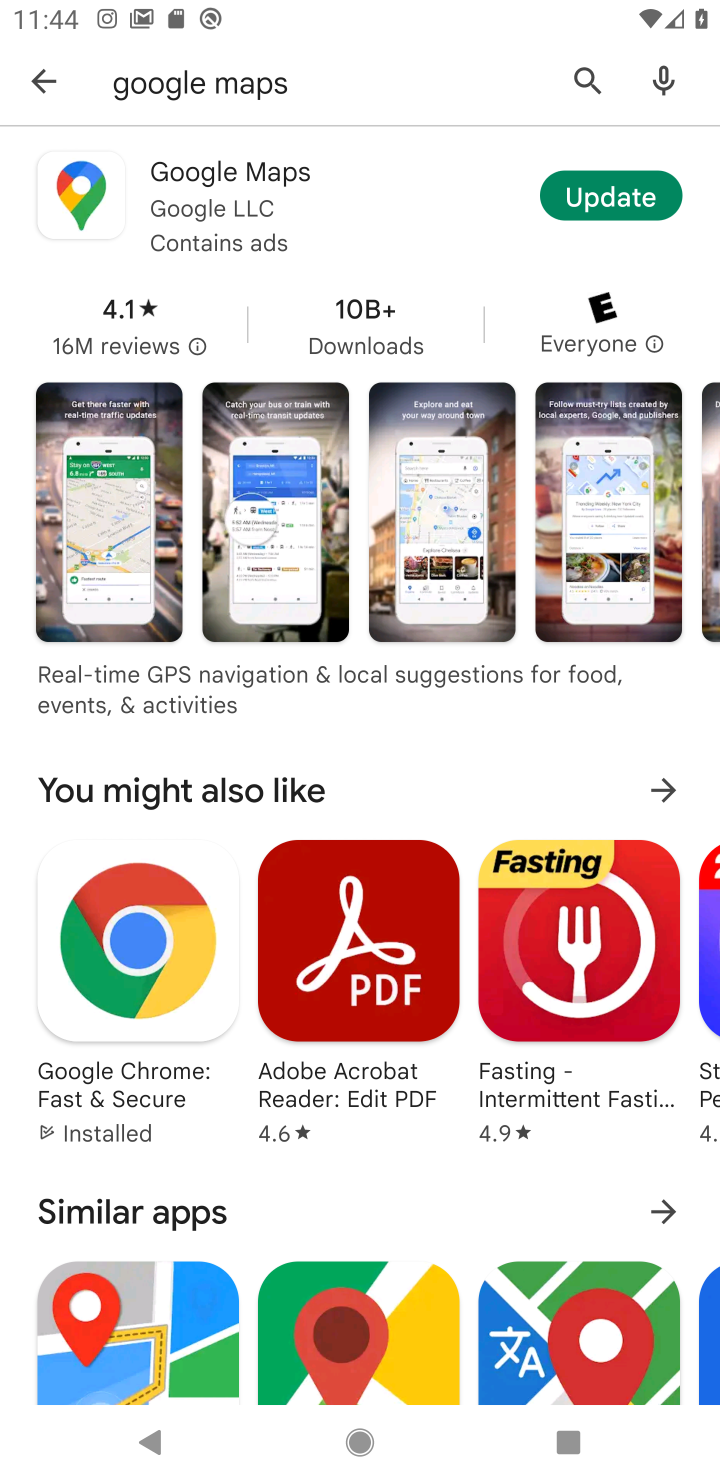
Step 28: click (621, 177)
Your task to perform on an android device: open app "Google Maps" (install if not already installed) Image 29: 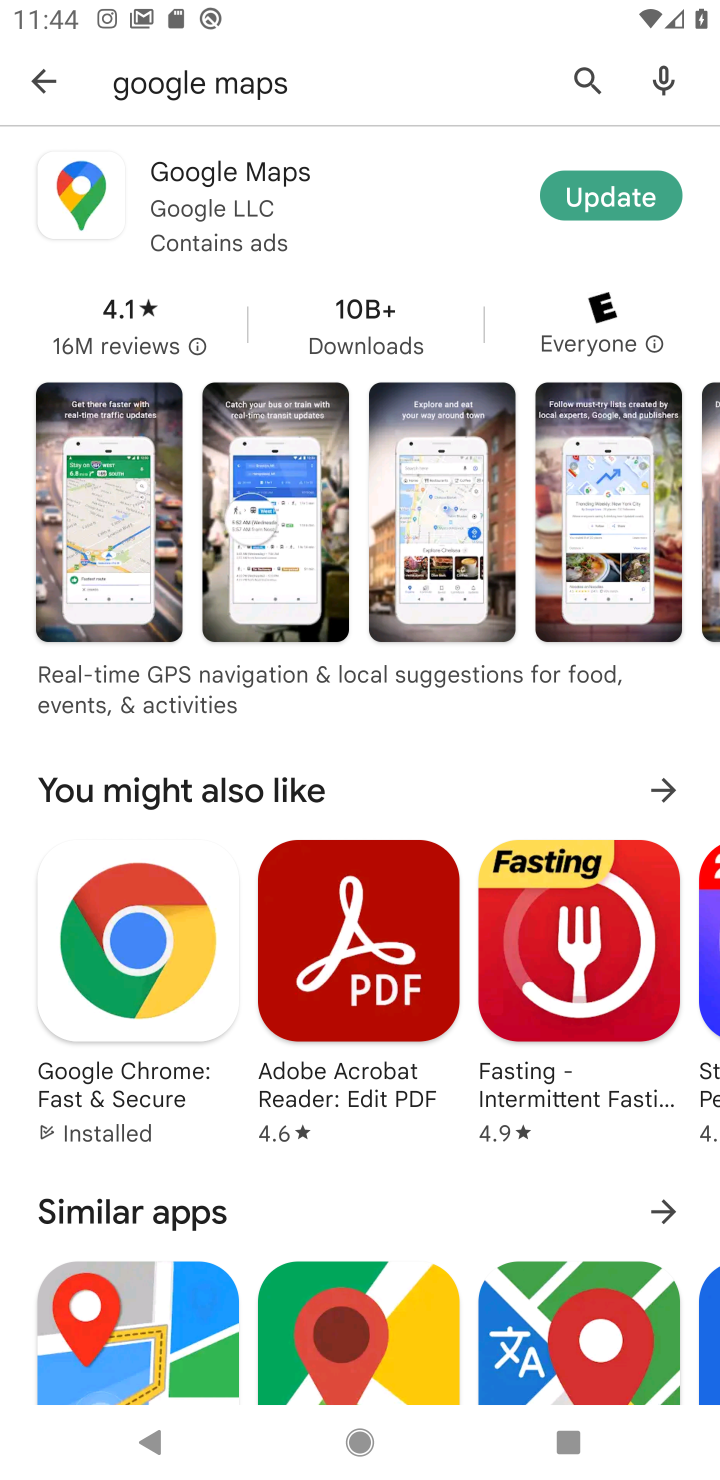
Step 29: click (610, 168)
Your task to perform on an android device: open app "Google Maps" (install if not already installed) Image 30: 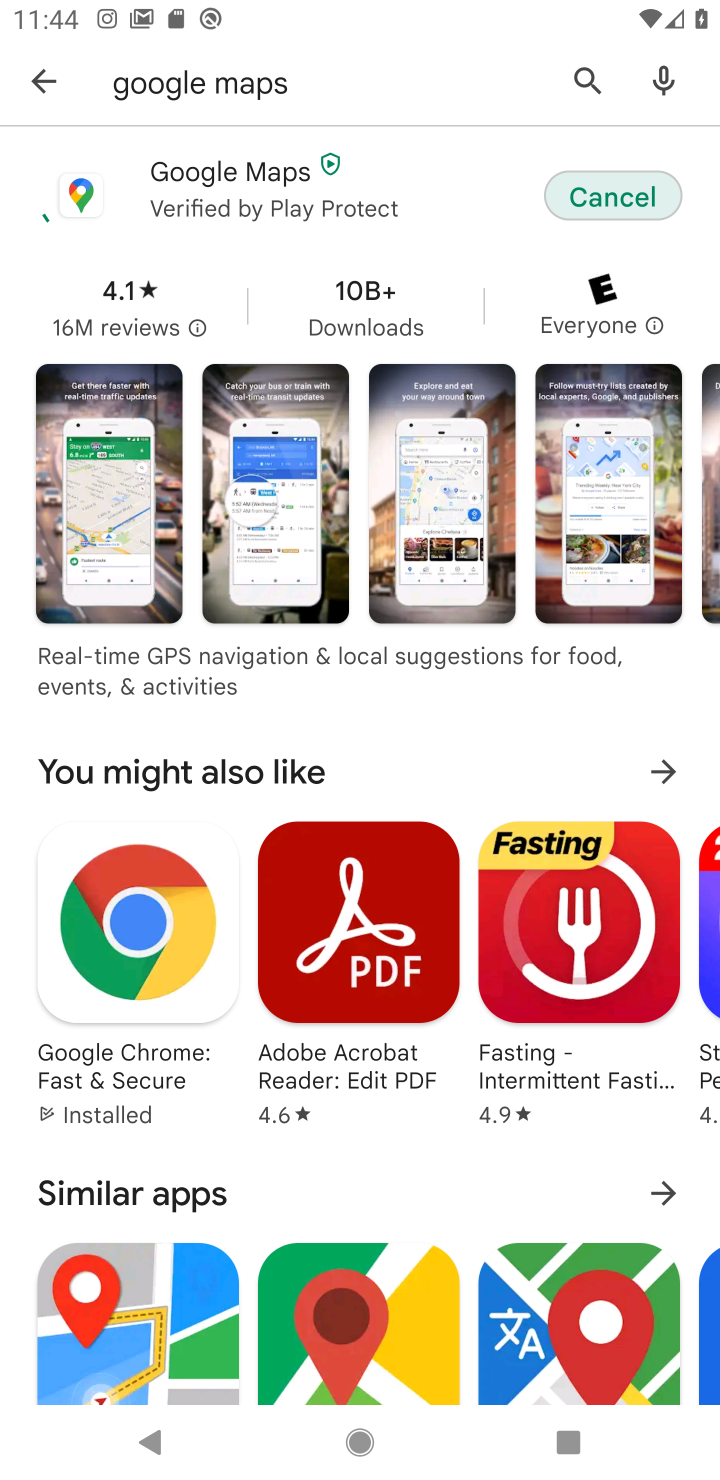
Step 30: click (617, 166)
Your task to perform on an android device: open app "Google Maps" (install if not already installed) Image 31: 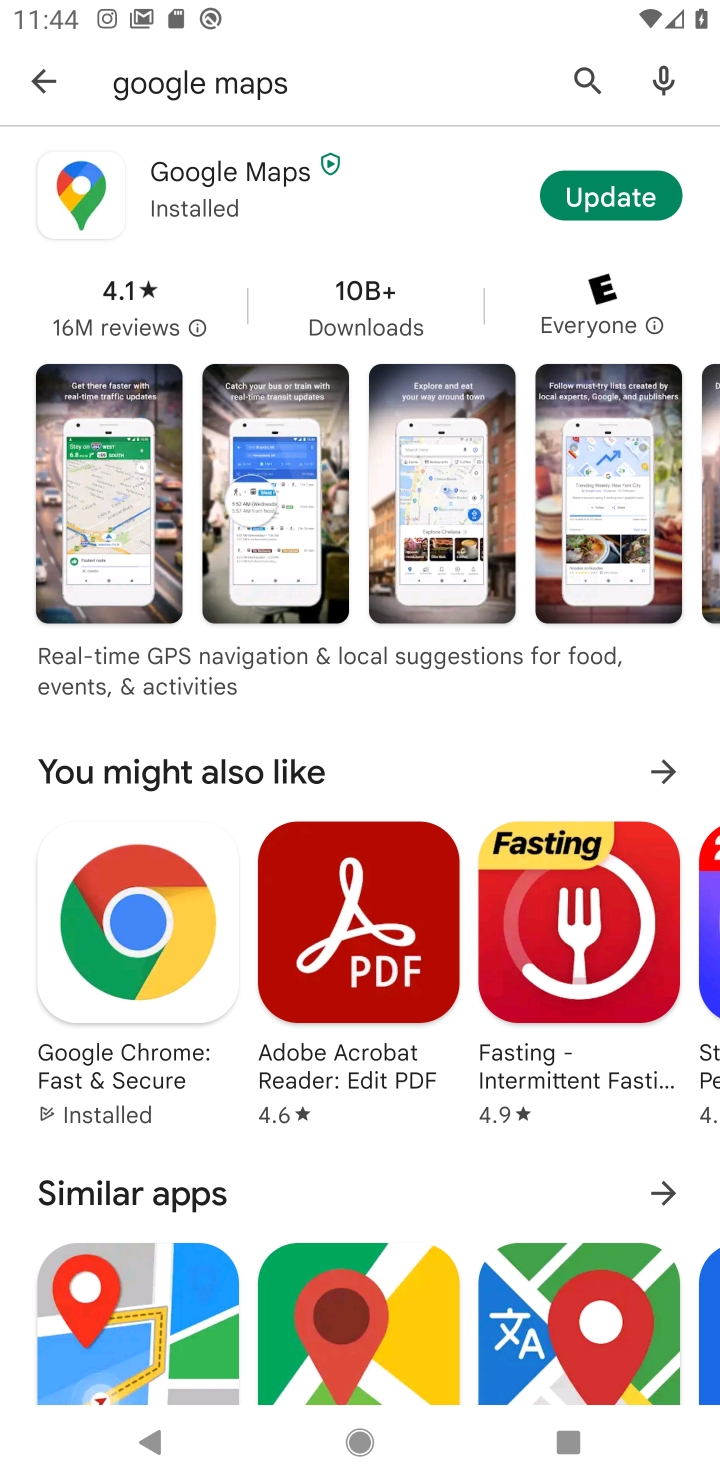
Step 31: click (600, 186)
Your task to perform on an android device: open app "Google Maps" (install if not already installed) Image 32: 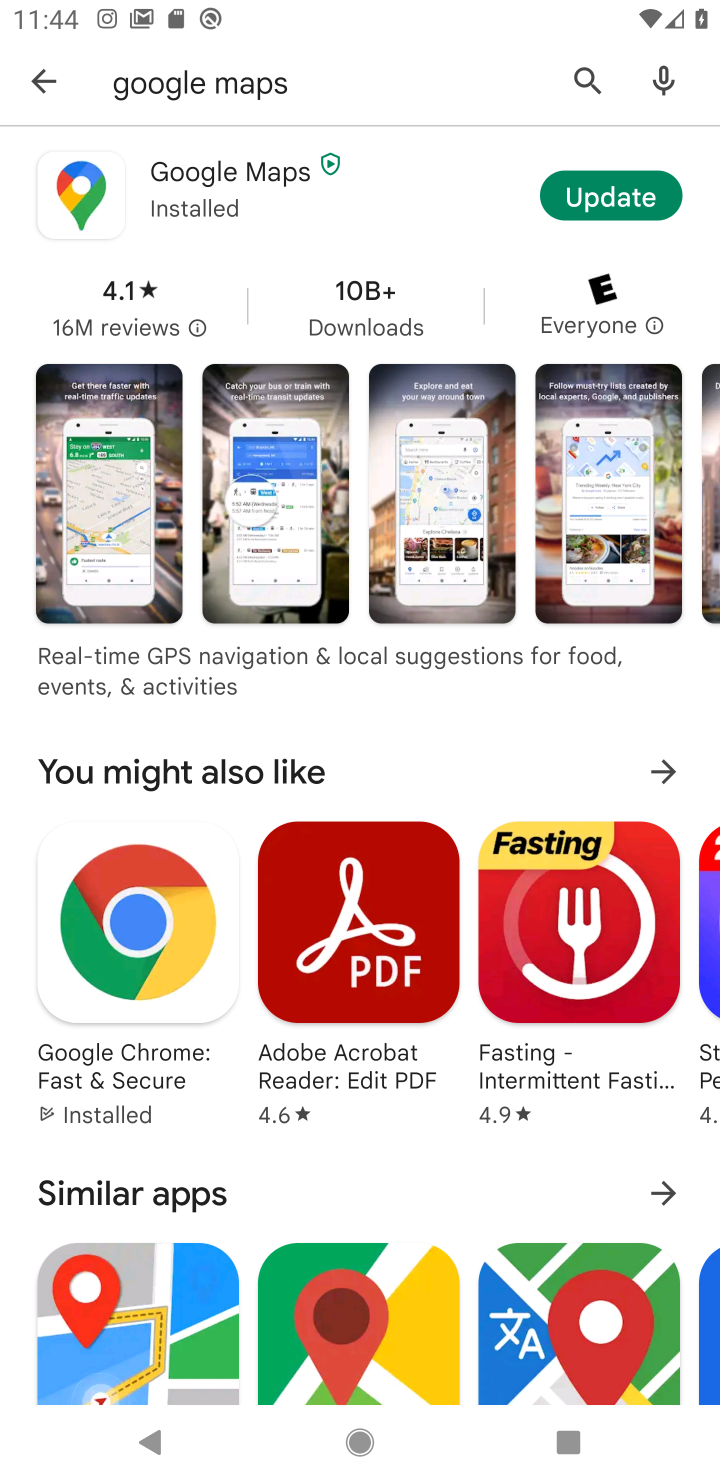
Step 32: drag from (598, 184) to (638, 271)
Your task to perform on an android device: open app "Google Maps" (install if not already installed) Image 33: 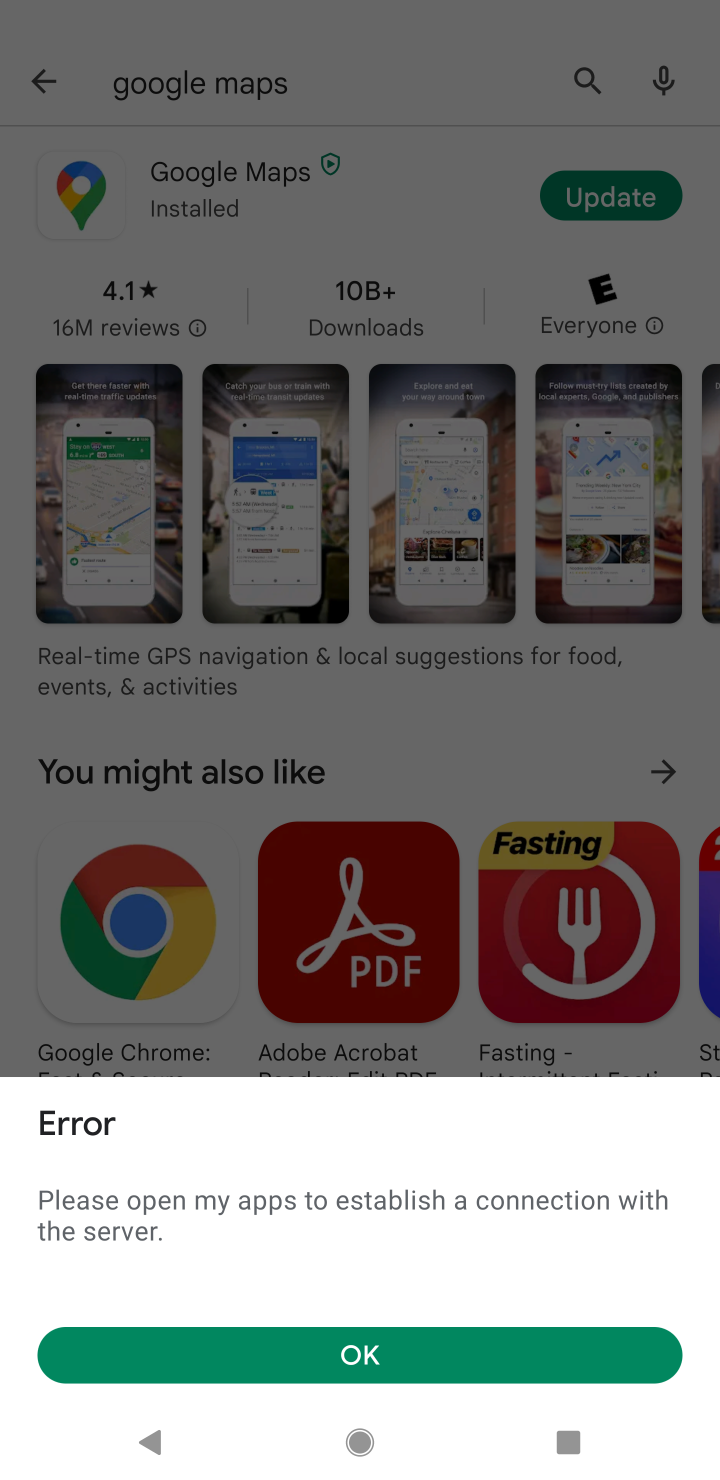
Step 33: click (370, 1377)
Your task to perform on an android device: open app "Google Maps" (install if not already installed) Image 34: 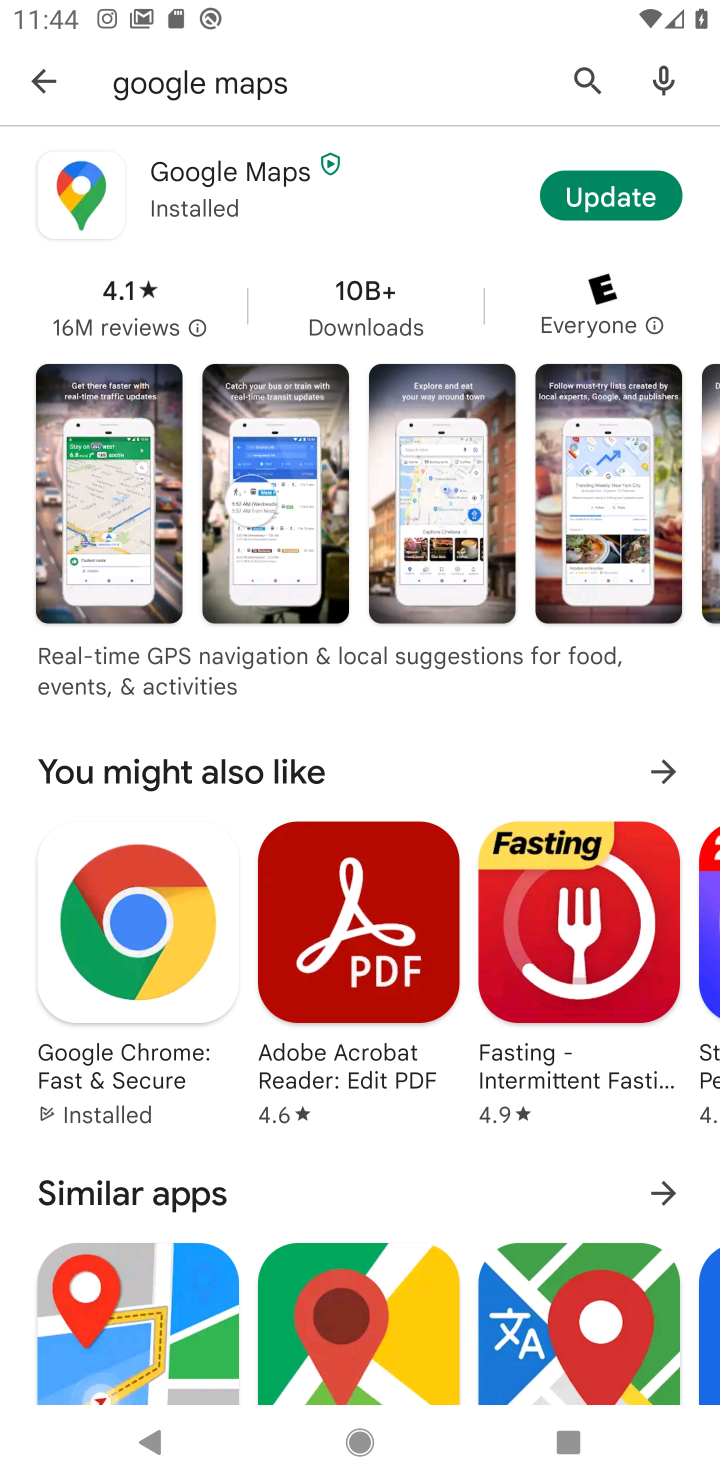
Step 34: task complete